Your task to perform on an android device: turn on bluetooth scan Image 0: 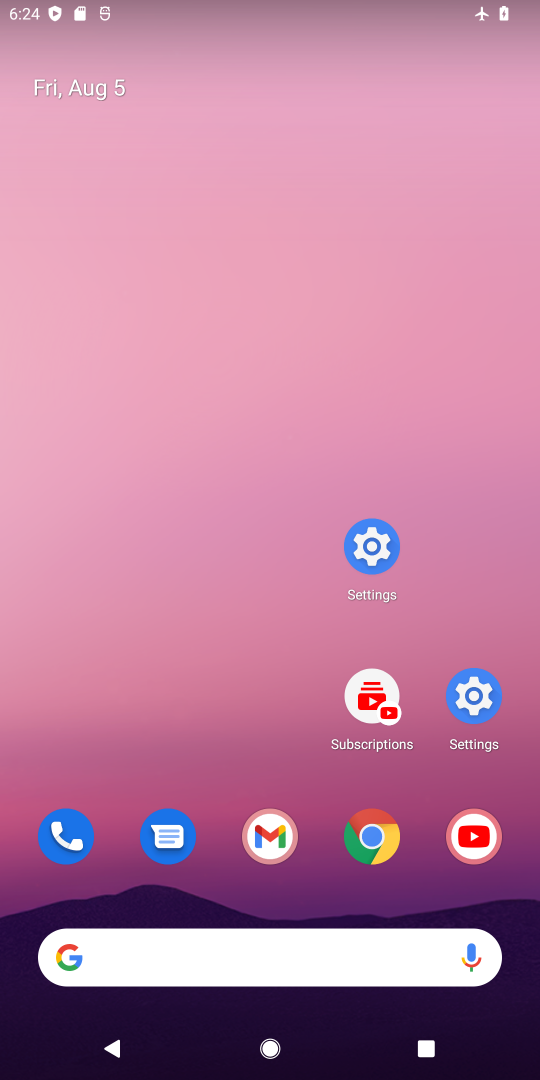
Step 0: click (303, 485)
Your task to perform on an android device: turn on bluetooth scan Image 1: 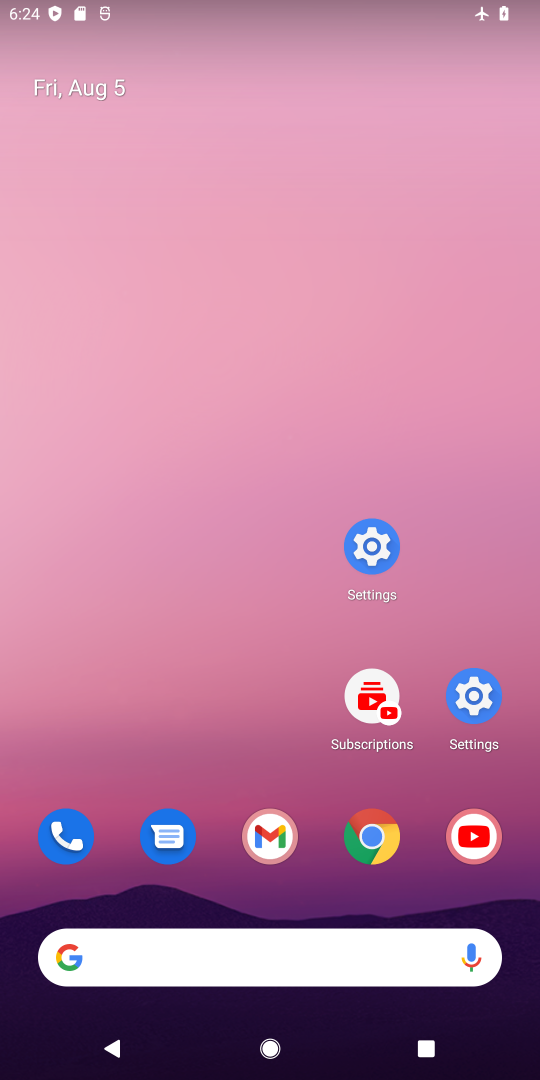
Step 1: drag from (293, 855) to (313, 535)
Your task to perform on an android device: turn on bluetooth scan Image 2: 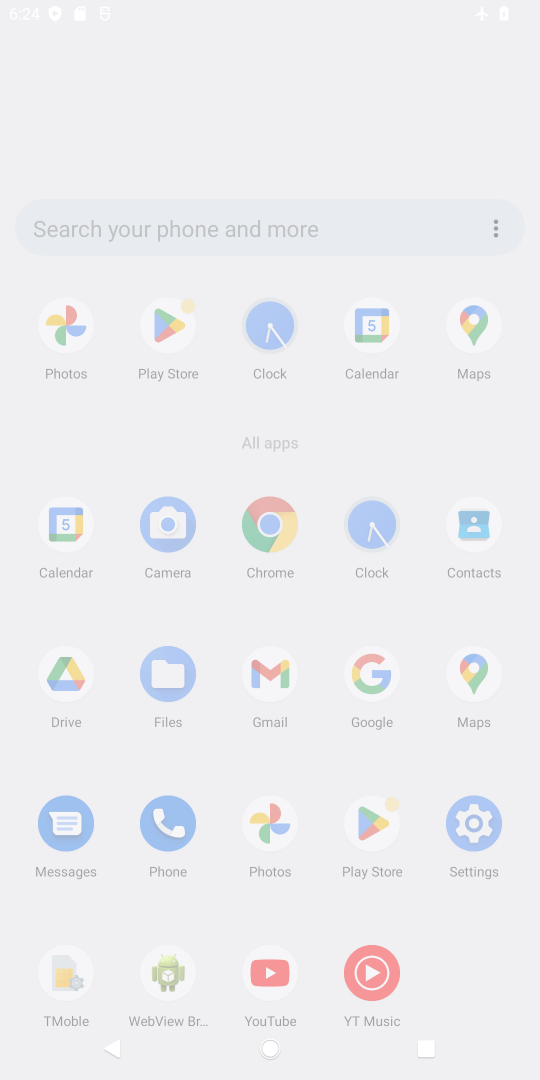
Step 2: drag from (386, 860) to (324, 519)
Your task to perform on an android device: turn on bluetooth scan Image 3: 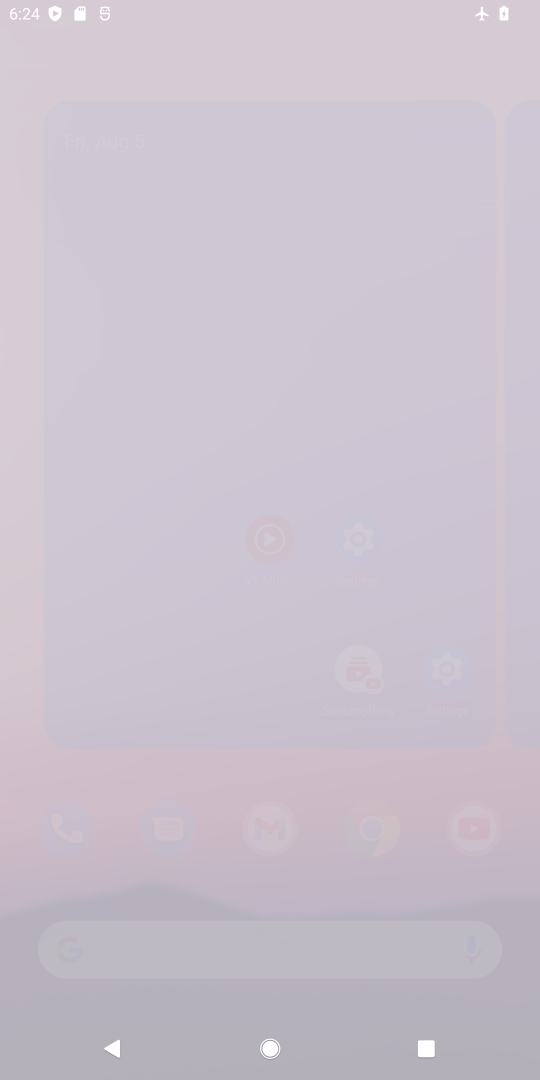
Step 3: drag from (219, 385) to (223, 301)
Your task to perform on an android device: turn on bluetooth scan Image 4: 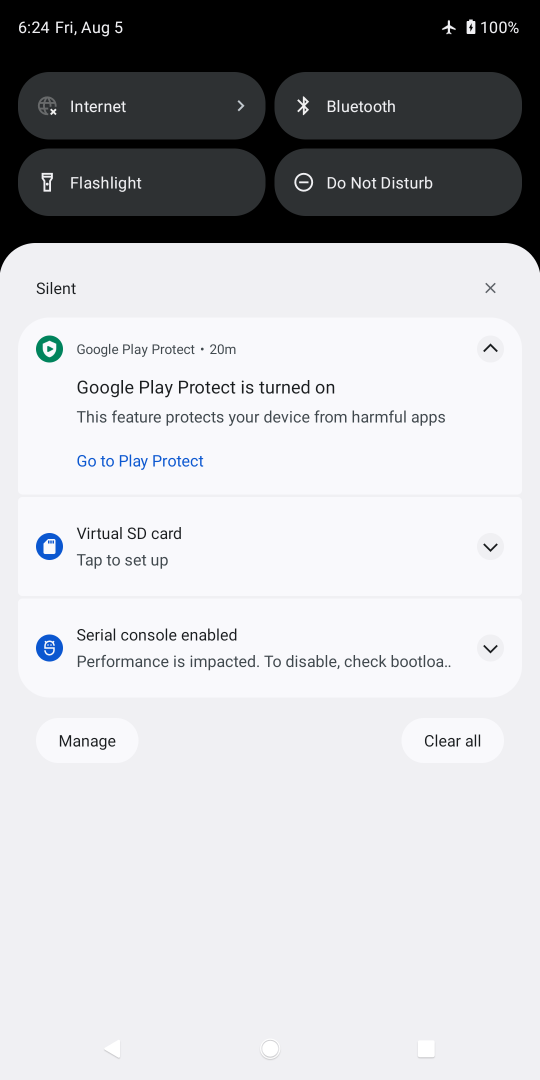
Step 4: click (299, 439)
Your task to perform on an android device: turn on bluetooth scan Image 5: 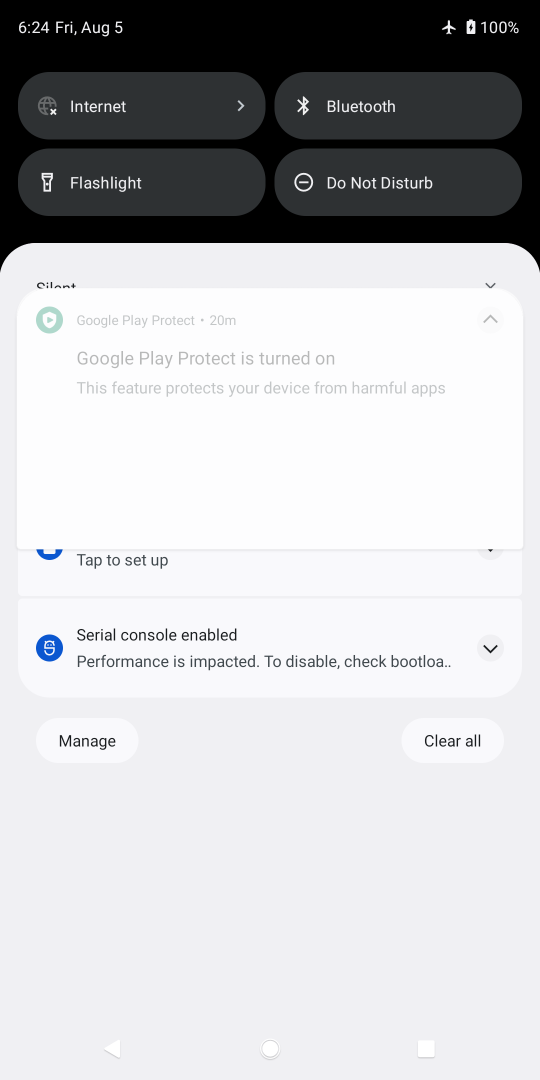
Step 5: drag from (325, 677) to (317, 288)
Your task to perform on an android device: turn on bluetooth scan Image 6: 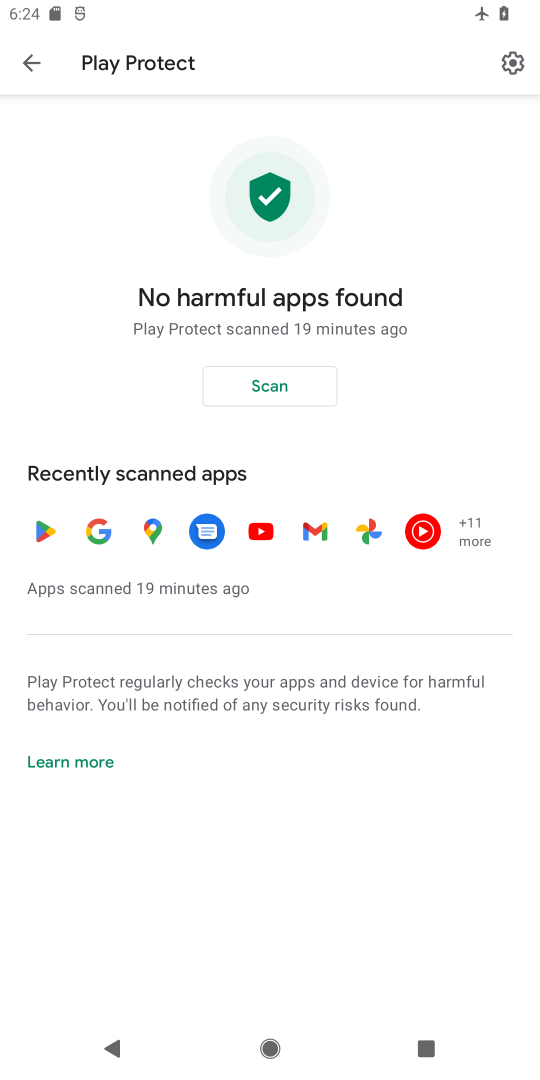
Step 6: drag from (355, 839) to (370, 124)
Your task to perform on an android device: turn on bluetooth scan Image 7: 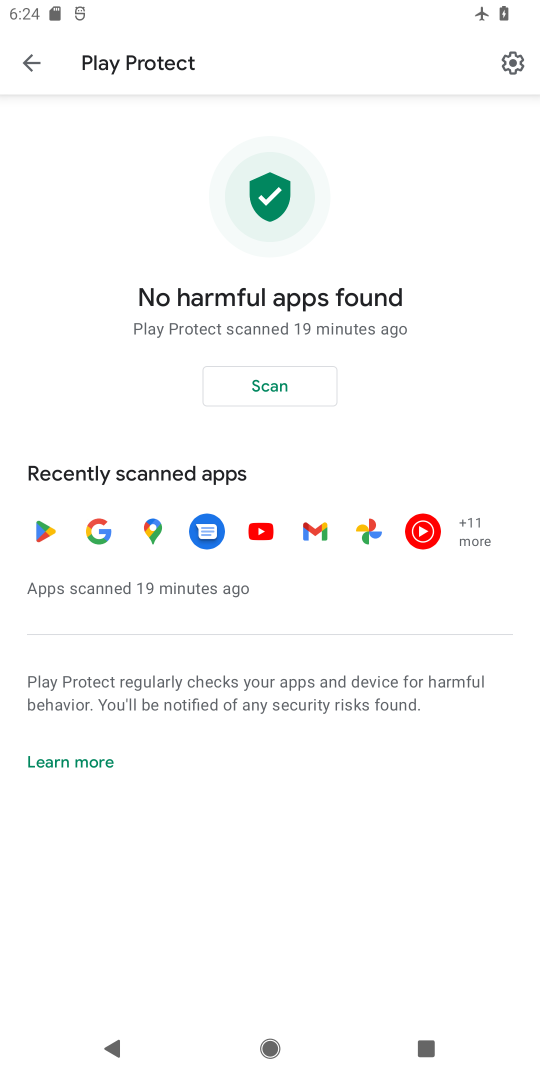
Step 7: press back button
Your task to perform on an android device: turn on bluetooth scan Image 8: 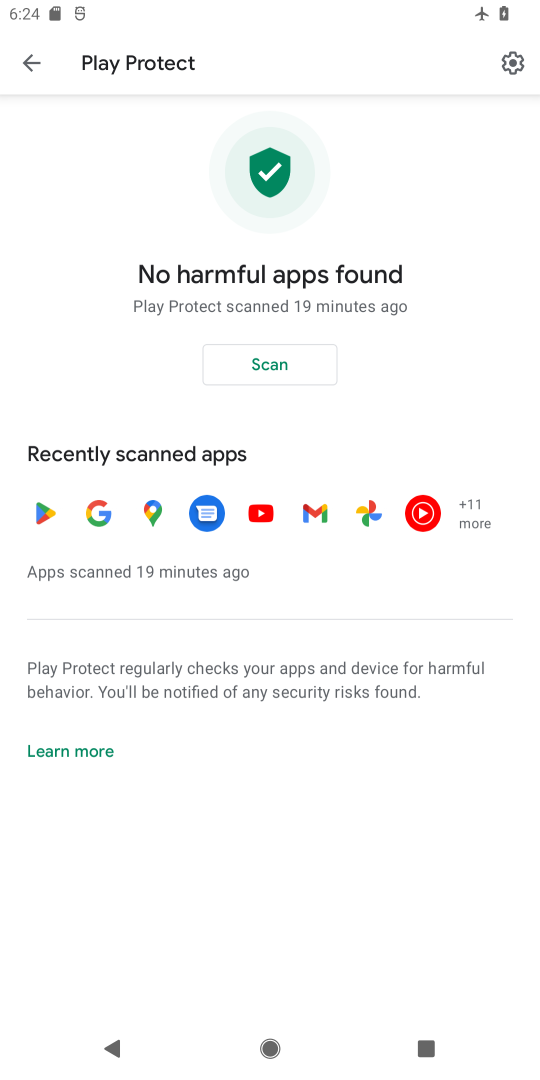
Step 8: press back button
Your task to perform on an android device: turn on bluetooth scan Image 9: 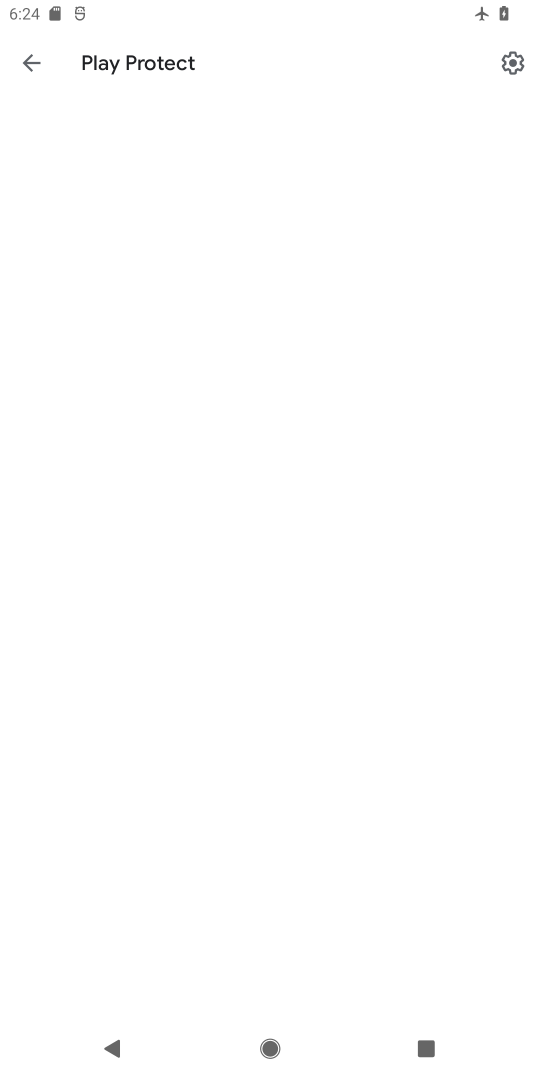
Step 9: press home button
Your task to perform on an android device: turn on bluetooth scan Image 10: 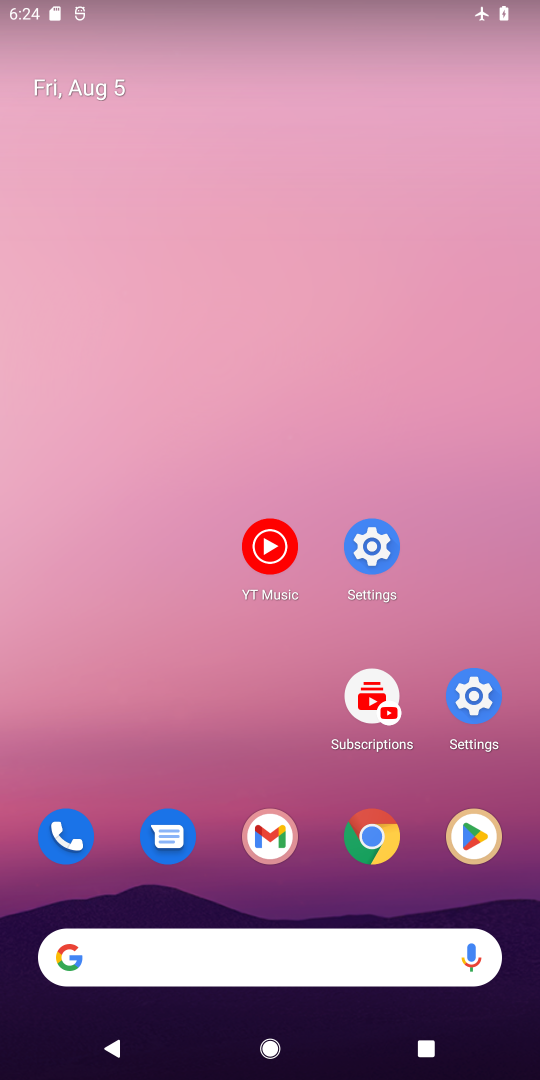
Step 10: click (37, 67)
Your task to perform on an android device: turn on bluetooth scan Image 11: 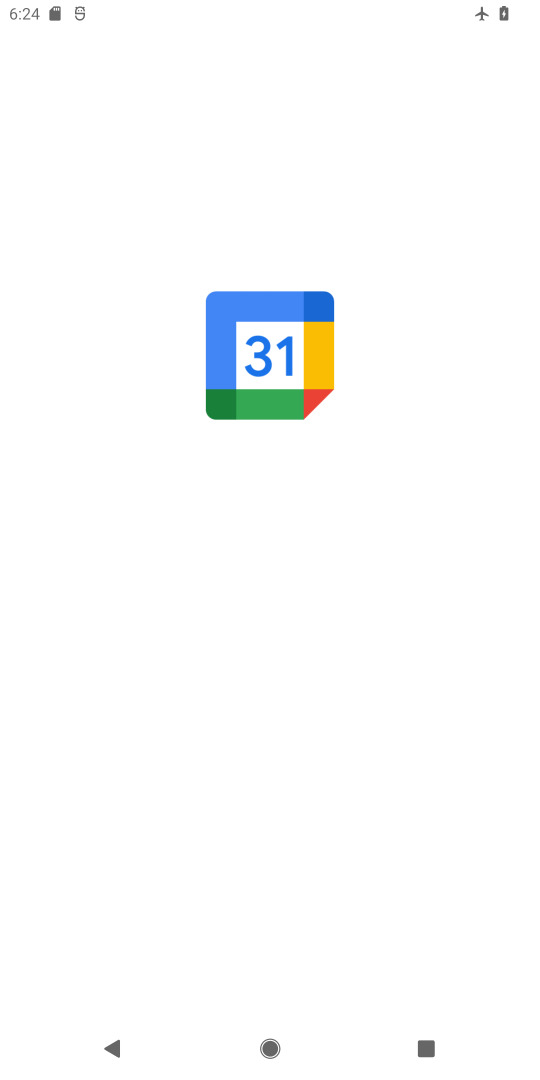
Step 11: drag from (305, 1016) to (217, 389)
Your task to perform on an android device: turn on bluetooth scan Image 12: 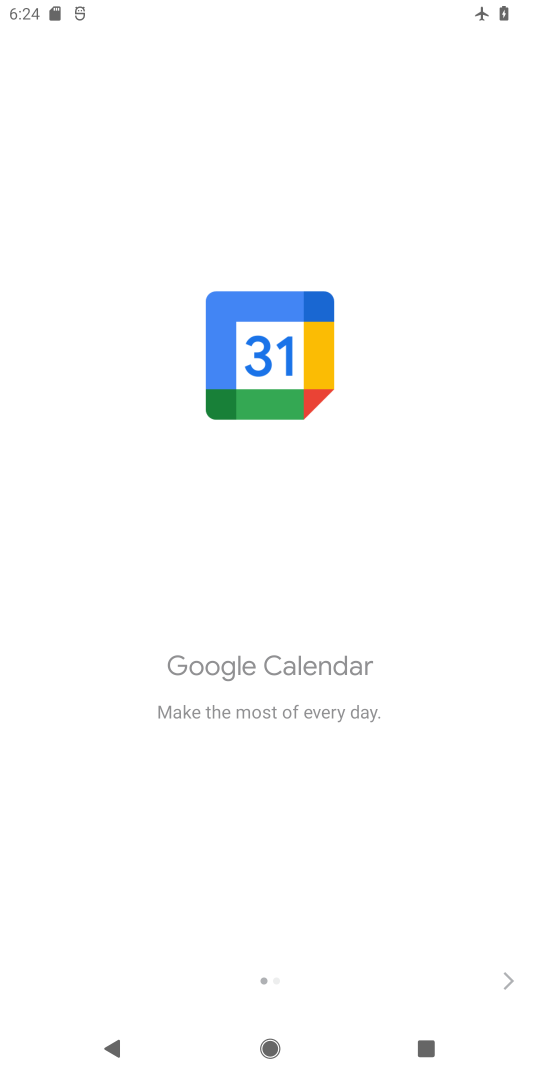
Step 12: drag from (348, 846) to (277, 257)
Your task to perform on an android device: turn on bluetooth scan Image 13: 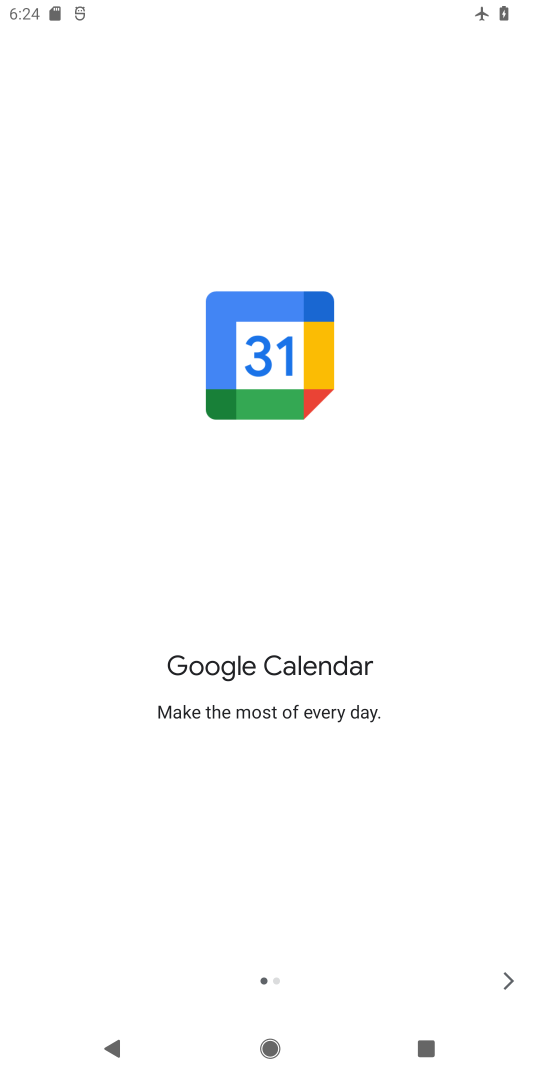
Step 13: click (520, 987)
Your task to perform on an android device: turn on bluetooth scan Image 14: 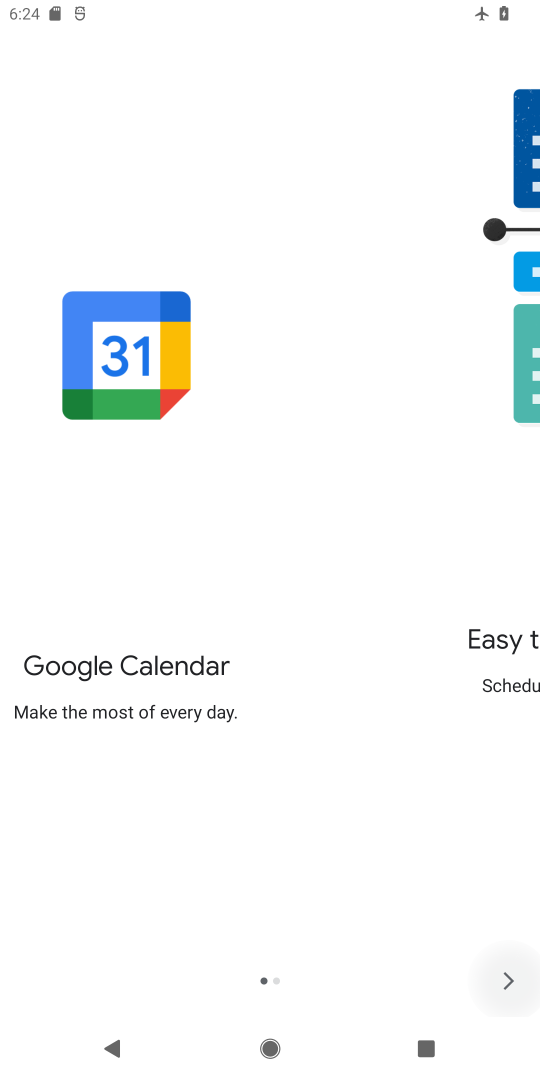
Step 14: click (502, 981)
Your task to perform on an android device: turn on bluetooth scan Image 15: 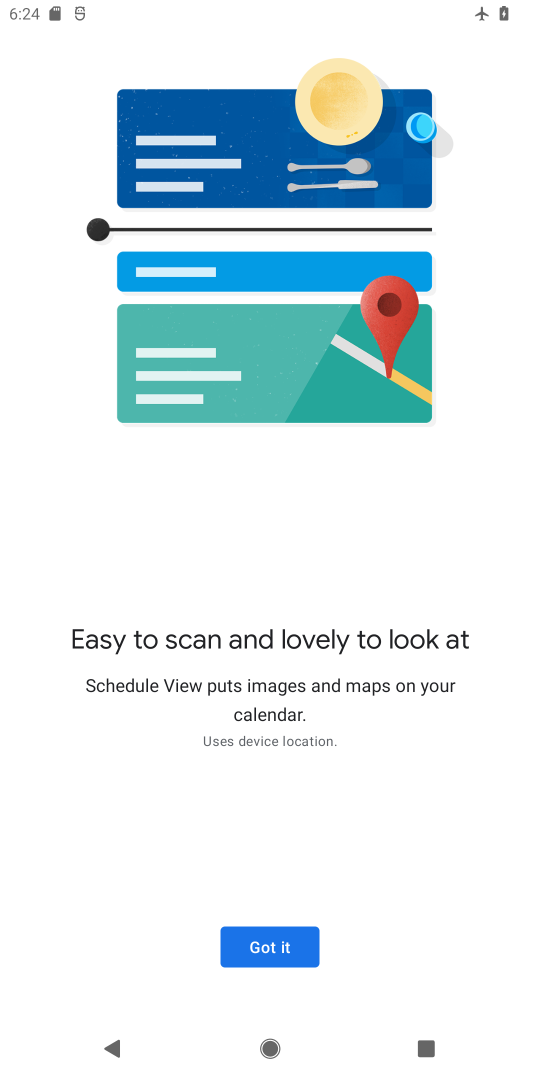
Step 15: press home button
Your task to perform on an android device: turn on bluetooth scan Image 16: 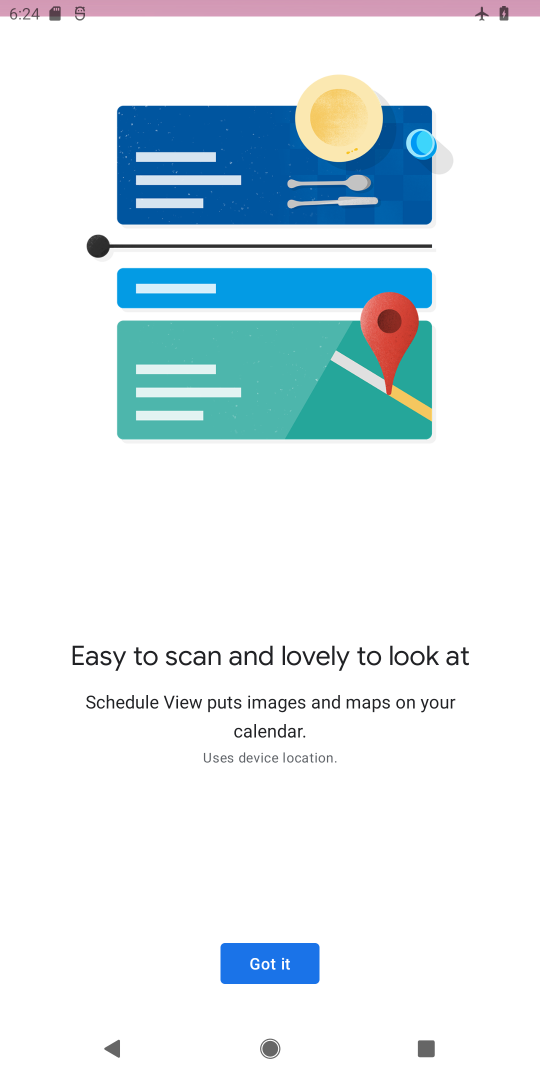
Step 16: press home button
Your task to perform on an android device: turn on bluetooth scan Image 17: 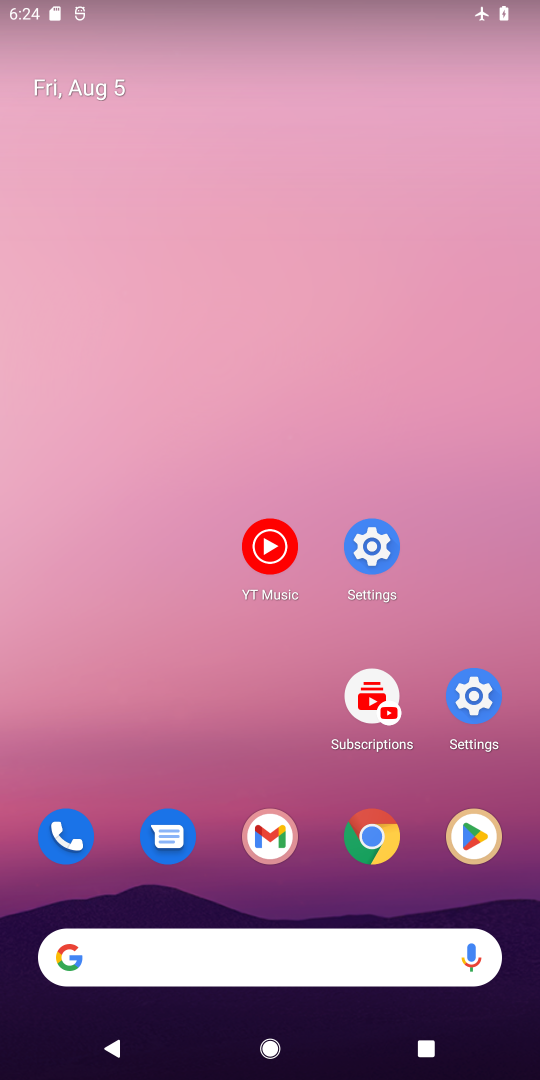
Step 17: press home button
Your task to perform on an android device: turn on bluetooth scan Image 18: 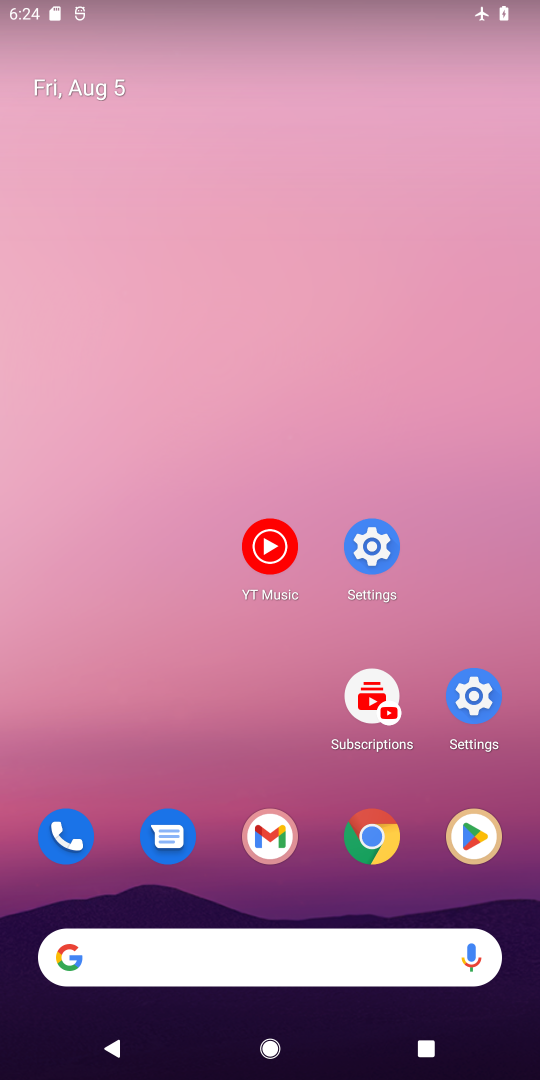
Step 18: drag from (329, 985) to (291, 433)
Your task to perform on an android device: turn on bluetooth scan Image 19: 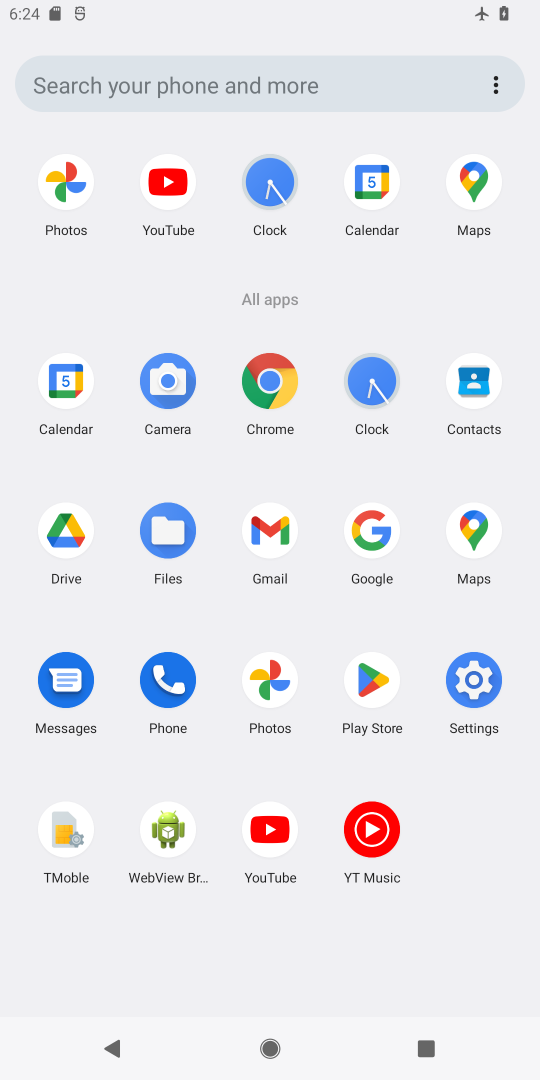
Step 19: drag from (295, 554) to (215, 276)
Your task to perform on an android device: turn on bluetooth scan Image 20: 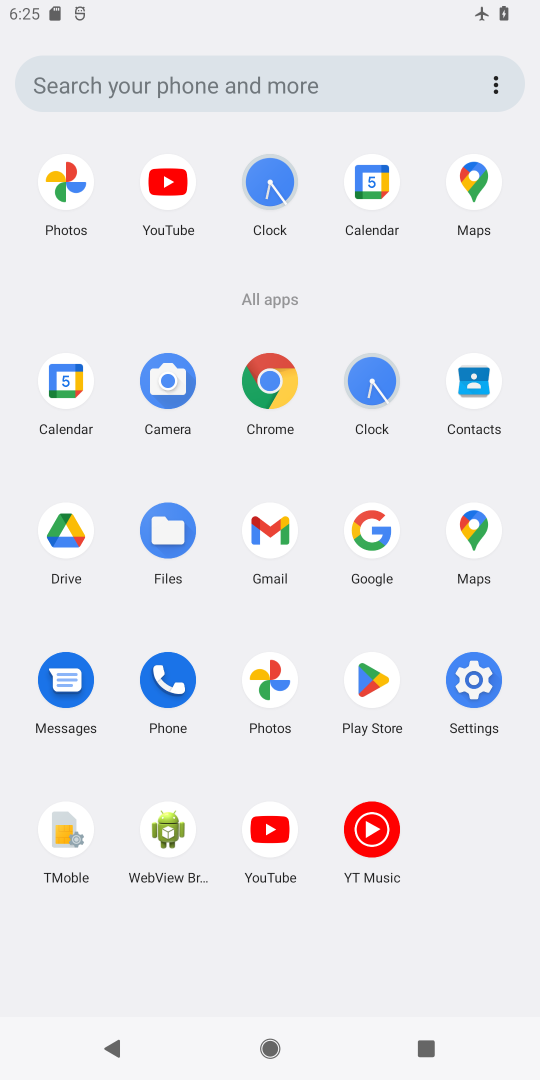
Step 20: click (481, 683)
Your task to perform on an android device: turn on bluetooth scan Image 21: 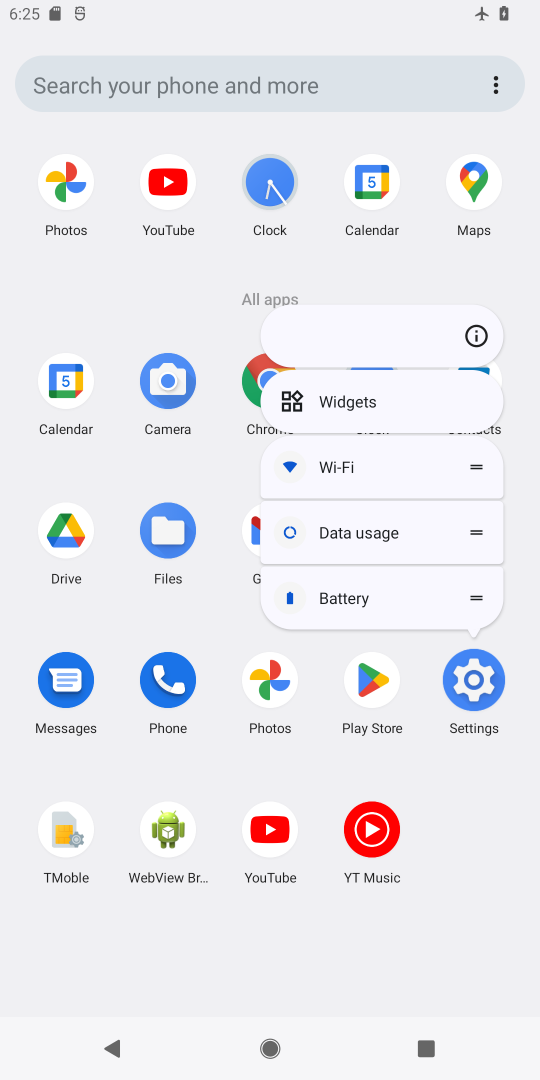
Step 21: click (481, 683)
Your task to perform on an android device: turn on bluetooth scan Image 22: 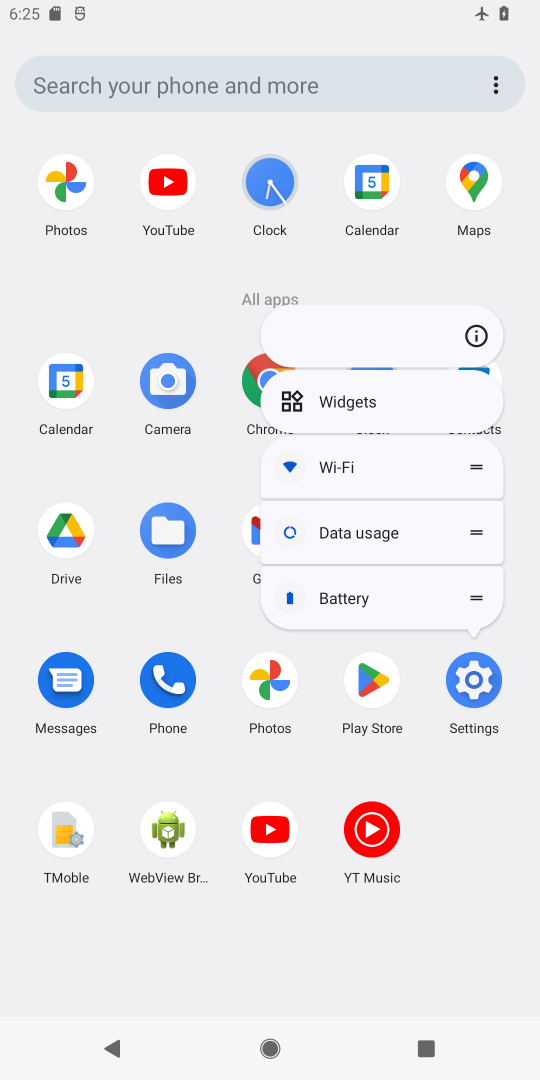
Step 22: click (481, 683)
Your task to perform on an android device: turn on bluetooth scan Image 23: 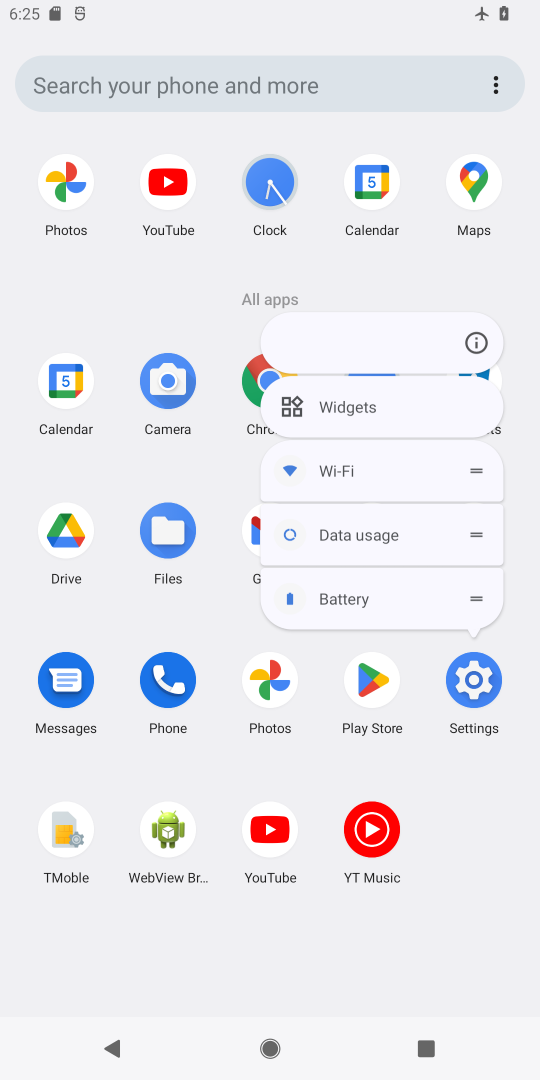
Step 23: click (481, 683)
Your task to perform on an android device: turn on bluetooth scan Image 24: 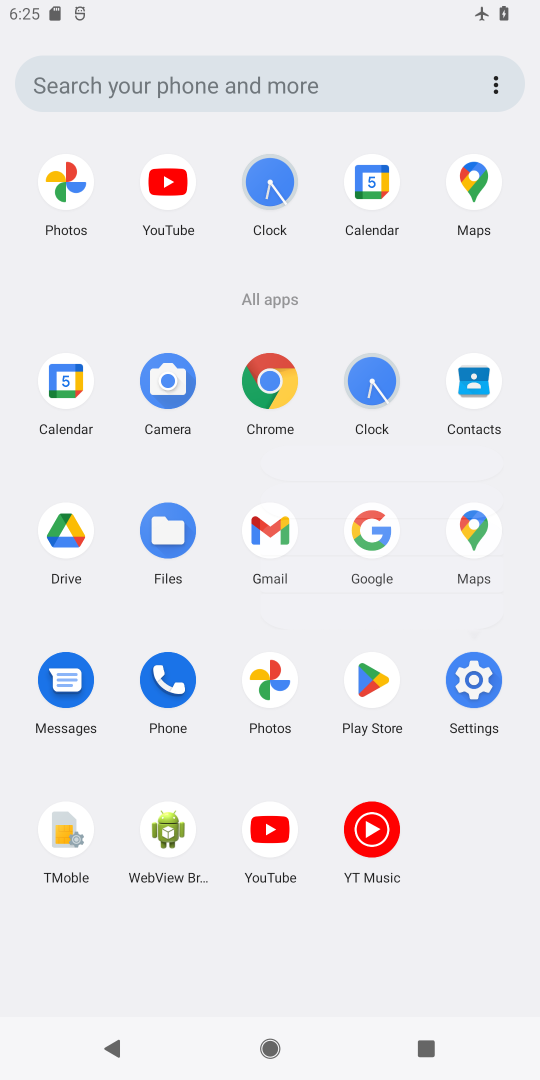
Step 24: click (481, 683)
Your task to perform on an android device: turn on bluetooth scan Image 25: 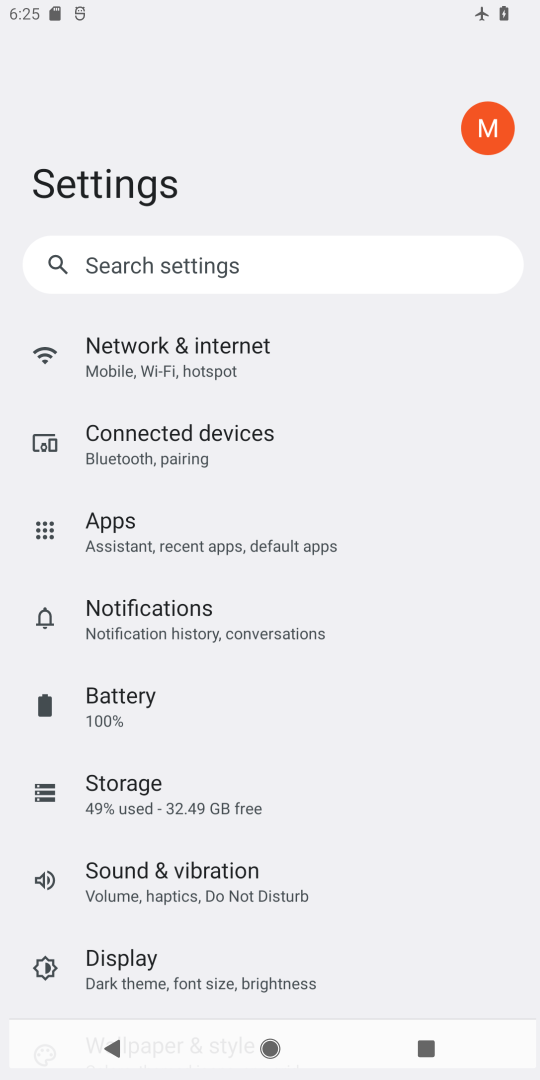
Step 25: click (481, 683)
Your task to perform on an android device: turn on bluetooth scan Image 26: 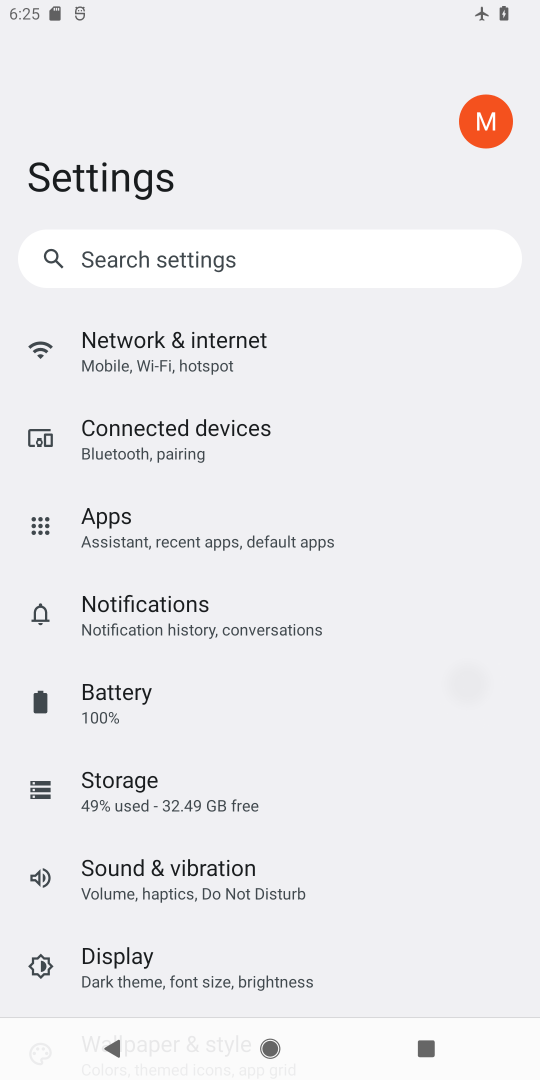
Step 26: click (481, 683)
Your task to perform on an android device: turn on bluetooth scan Image 27: 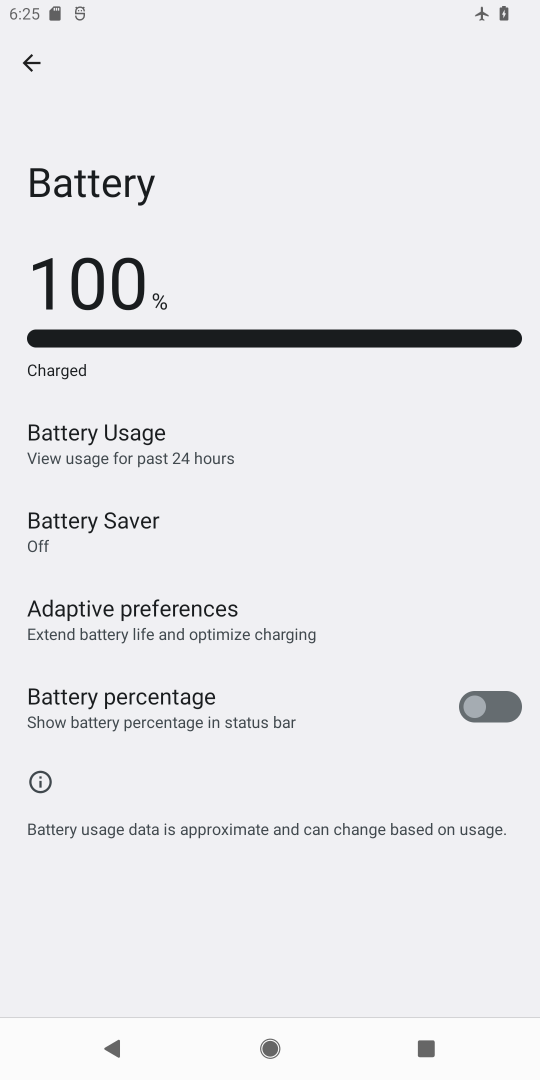
Step 27: click (34, 63)
Your task to perform on an android device: turn on bluetooth scan Image 28: 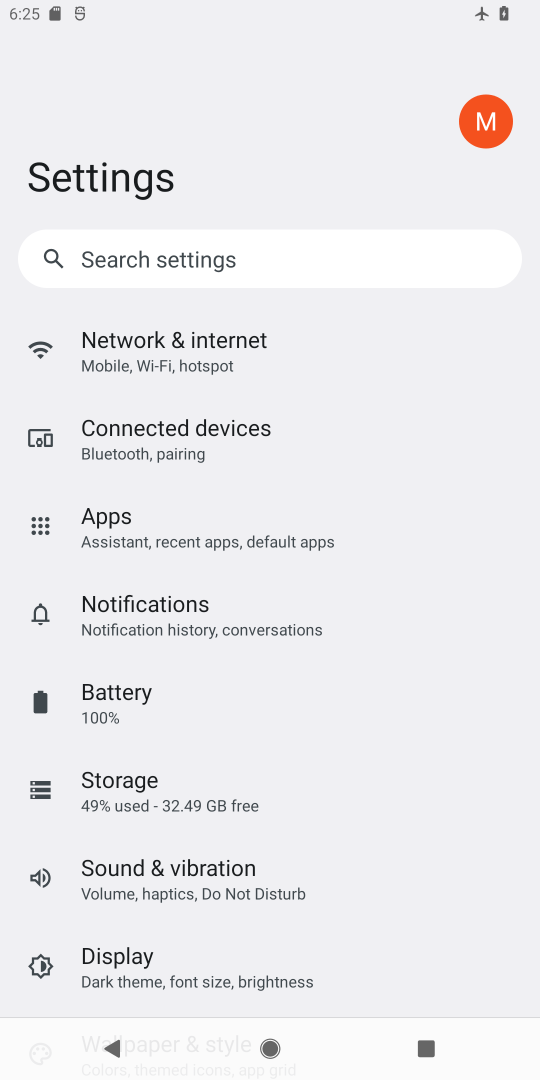
Step 28: drag from (235, 798) to (111, 439)
Your task to perform on an android device: turn on bluetooth scan Image 29: 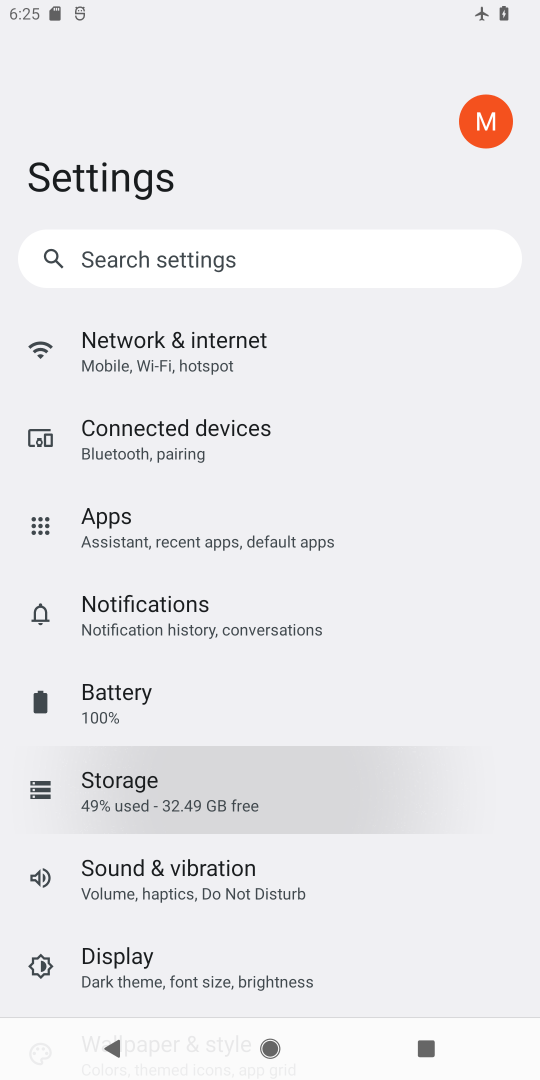
Step 29: drag from (149, 766) to (113, 412)
Your task to perform on an android device: turn on bluetooth scan Image 30: 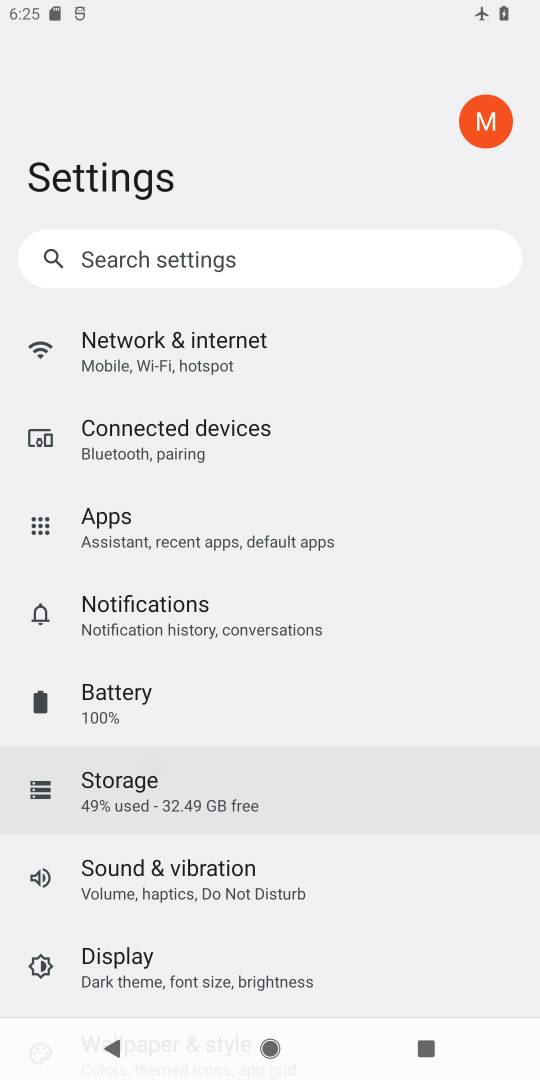
Step 30: drag from (148, 661) to (148, 428)
Your task to perform on an android device: turn on bluetooth scan Image 31: 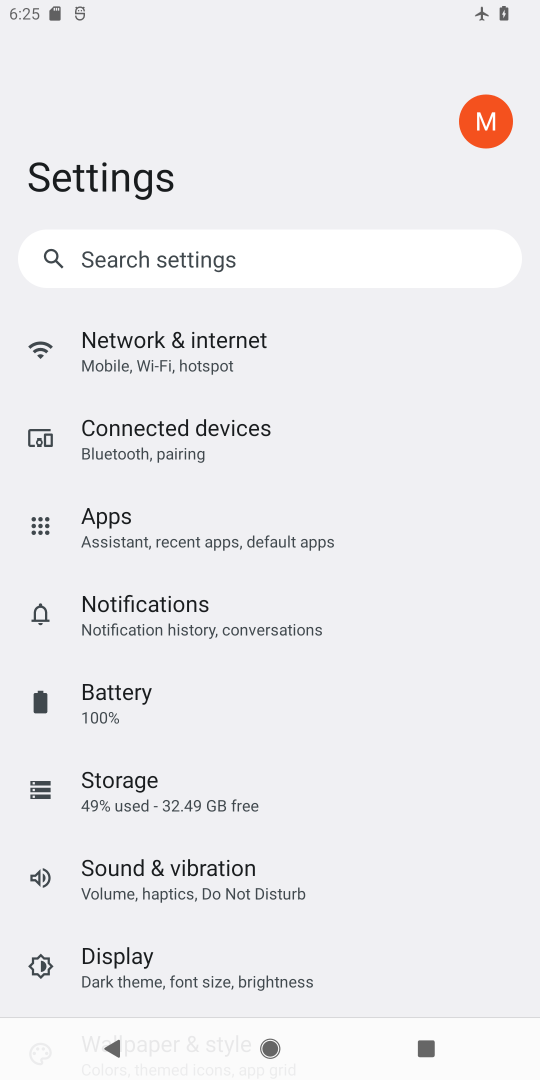
Step 31: drag from (270, 770) to (220, 429)
Your task to perform on an android device: turn on bluetooth scan Image 32: 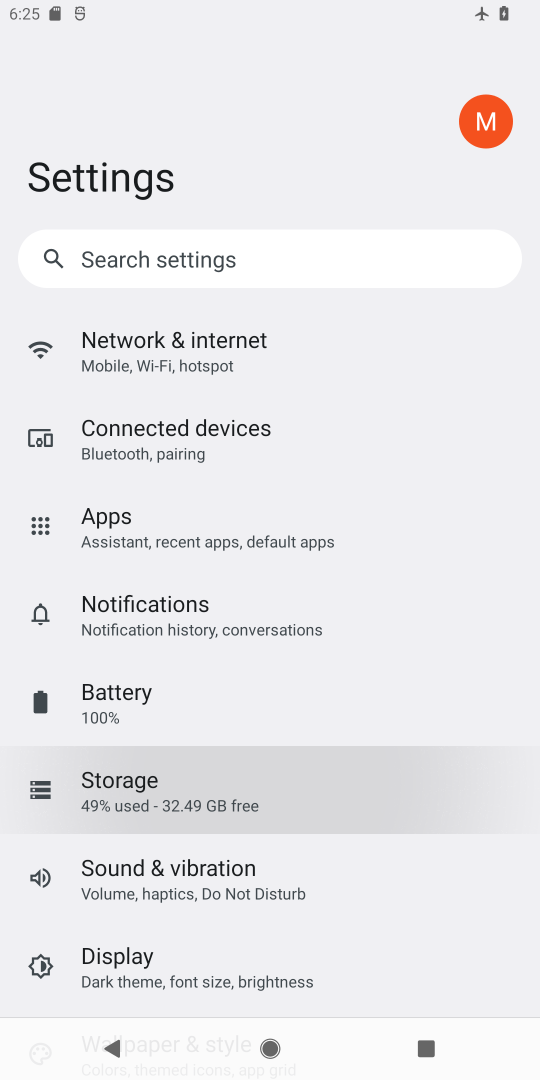
Step 32: drag from (320, 810) to (317, 402)
Your task to perform on an android device: turn on bluetooth scan Image 33: 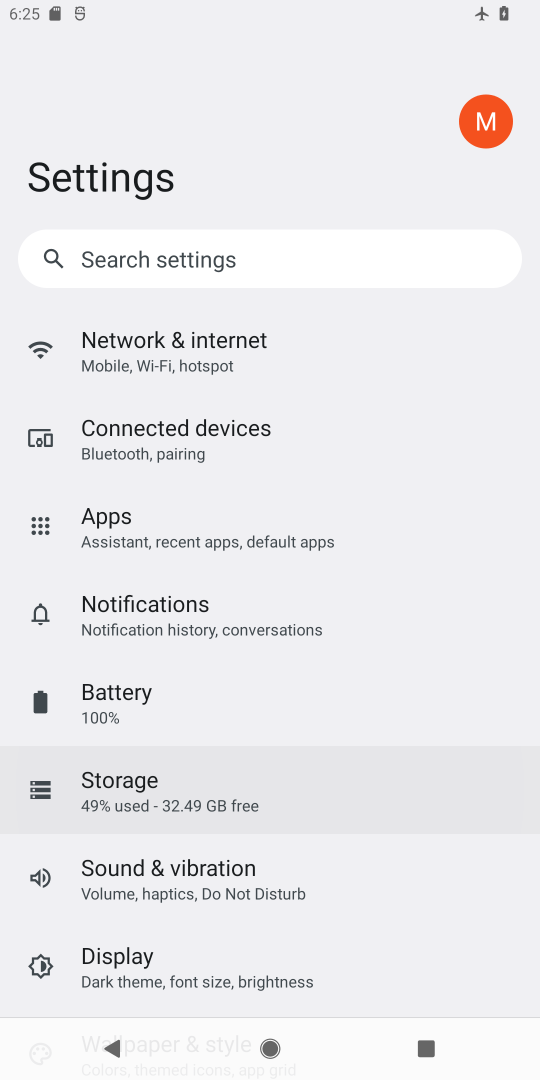
Step 33: drag from (354, 667) to (354, 302)
Your task to perform on an android device: turn on bluetooth scan Image 34: 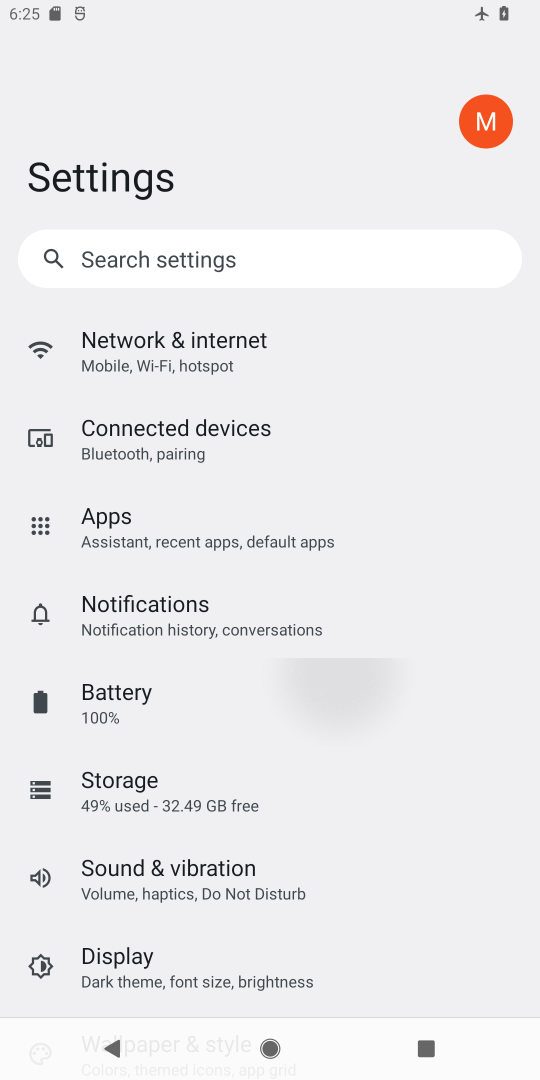
Step 34: drag from (245, 756) to (215, 396)
Your task to perform on an android device: turn on bluetooth scan Image 35: 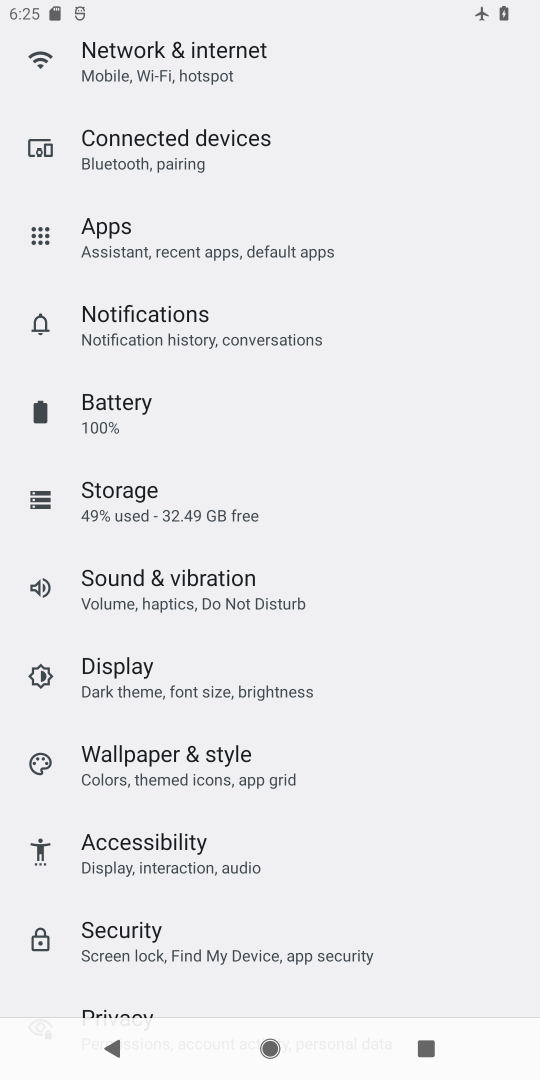
Step 35: drag from (224, 744) to (196, 498)
Your task to perform on an android device: turn on bluetooth scan Image 36: 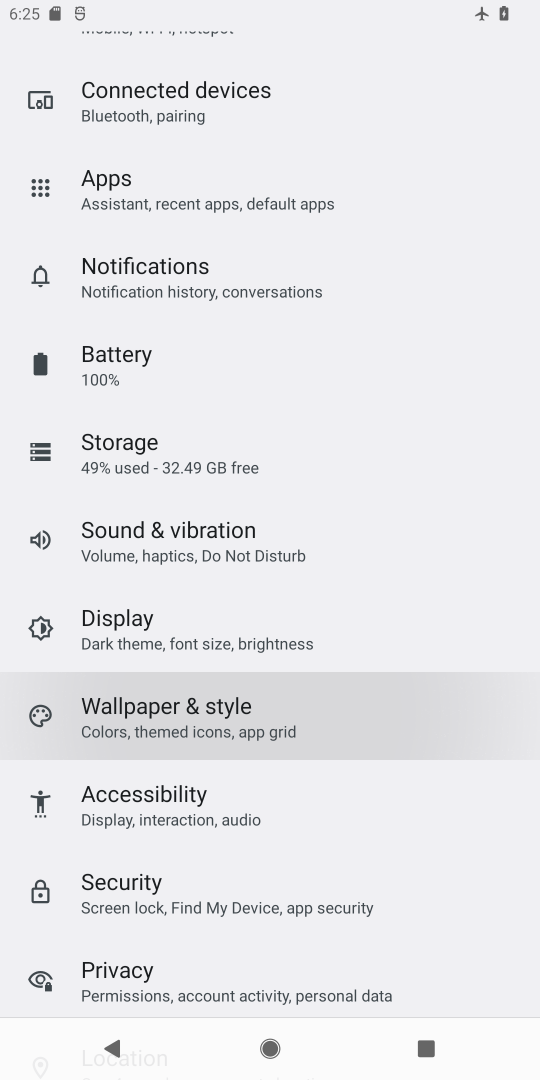
Step 36: drag from (184, 224) to (193, 296)
Your task to perform on an android device: turn on bluetooth scan Image 37: 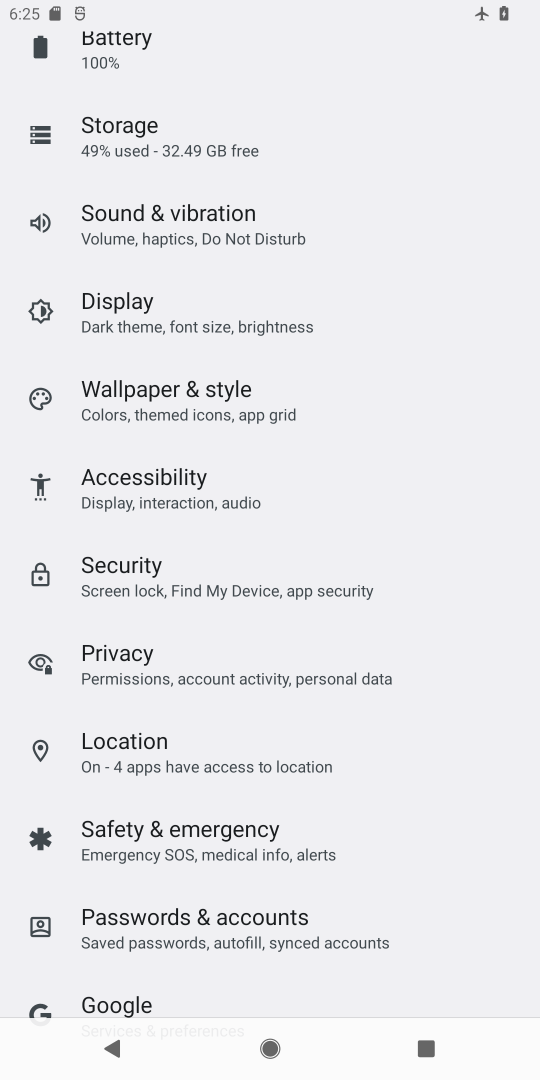
Step 37: drag from (201, 763) to (274, 291)
Your task to perform on an android device: turn on bluetooth scan Image 38: 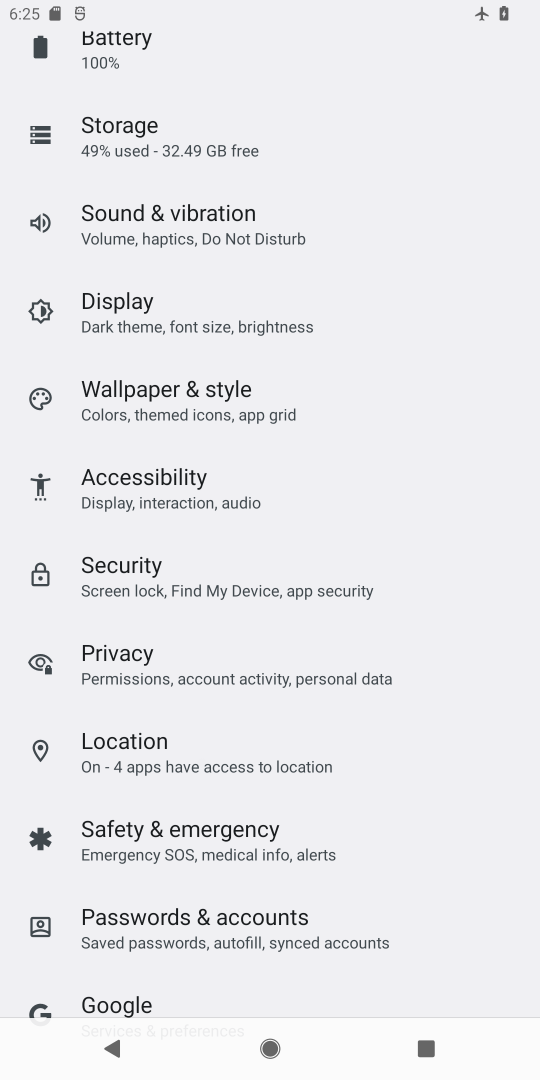
Step 38: drag from (246, 594) to (228, 129)
Your task to perform on an android device: turn on bluetooth scan Image 39: 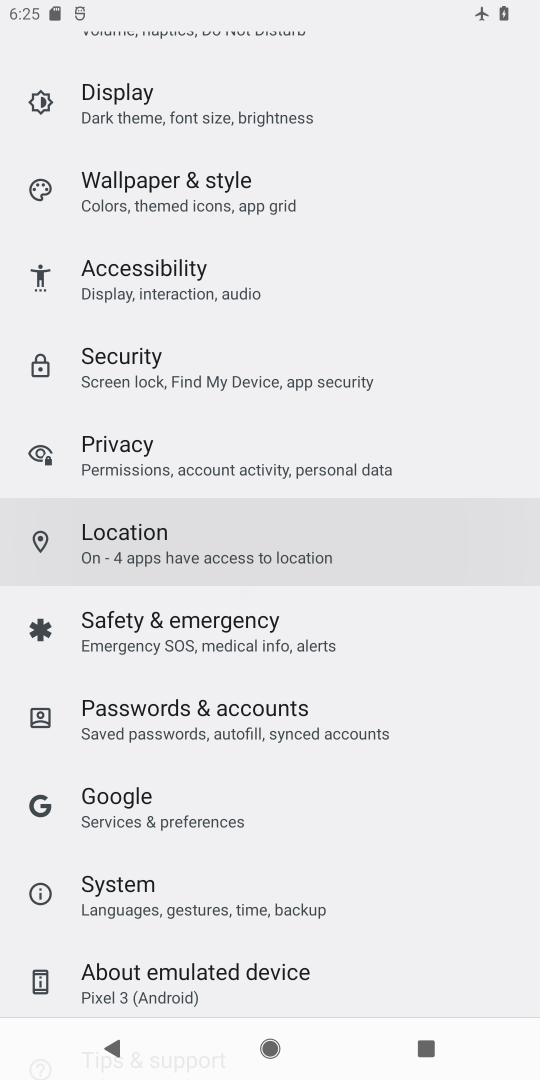
Step 39: drag from (185, 486) to (187, 308)
Your task to perform on an android device: turn on bluetooth scan Image 40: 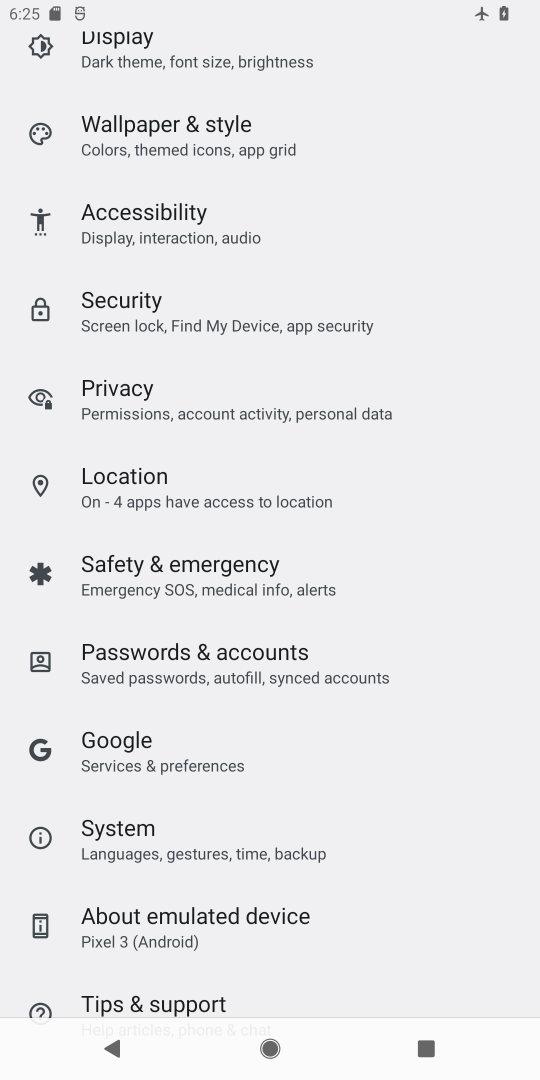
Step 40: drag from (155, 415) to (174, 758)
Your task to perform on an android device: turn on bluetooth scan Image 41: 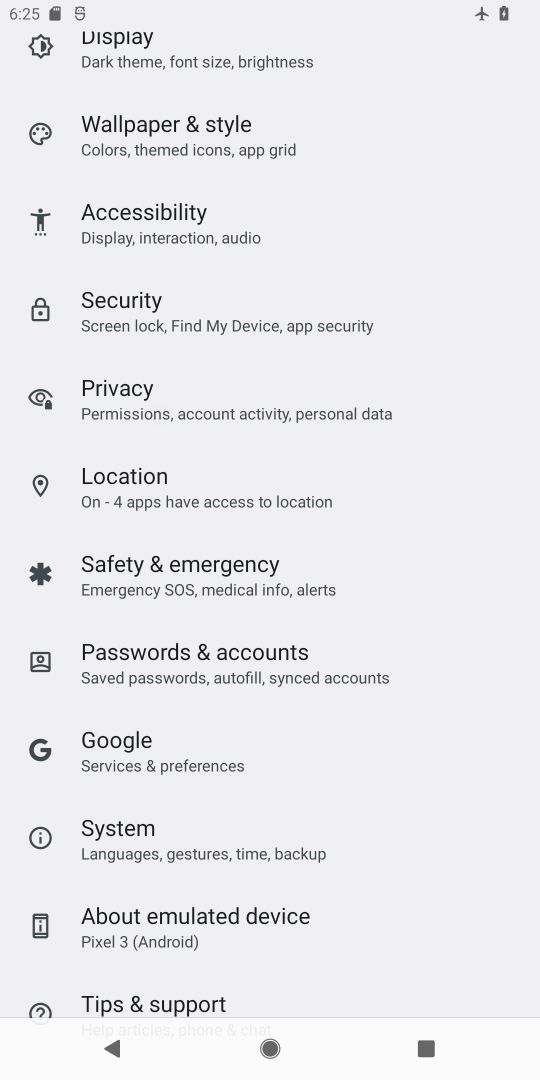
Step 41: drag from (133, 688) to (194, 900)
Your task to perform on an android device: turn on bluetooth scan Image 42: 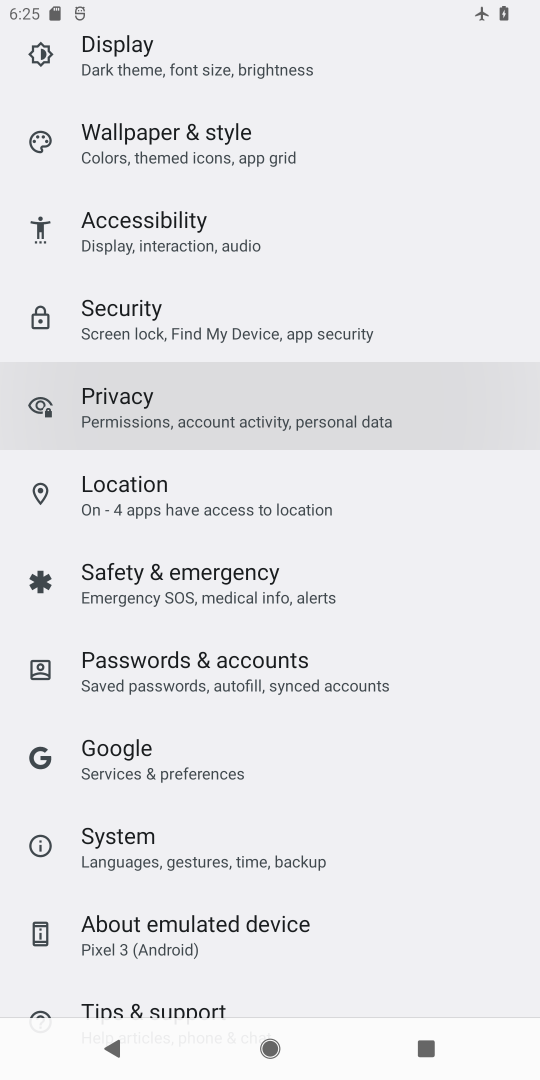
Step 42: drag from (156, 598) to (250, 1006)
Your task to perform on an android device: turn on bluetooth scan Image 43: 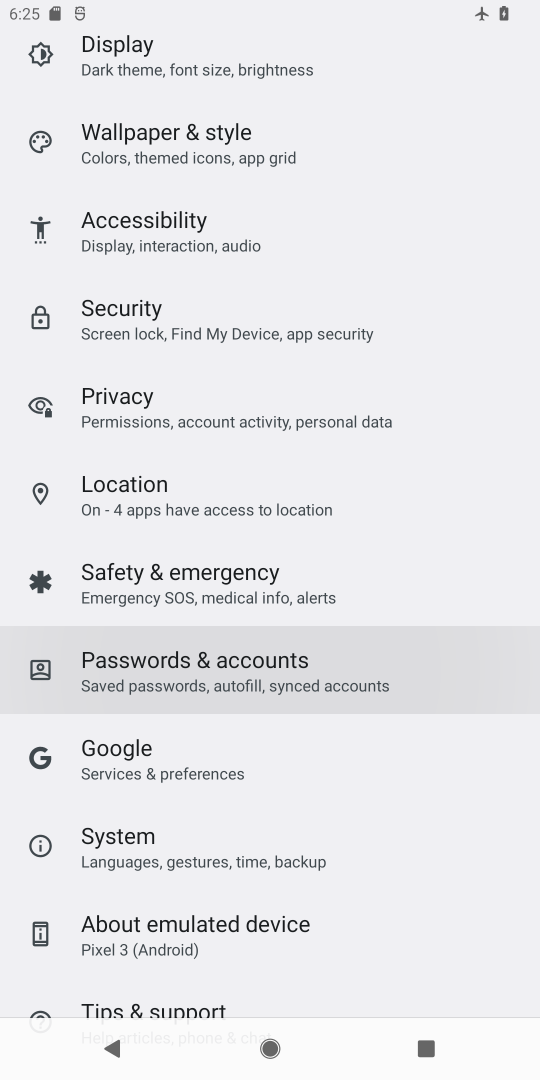
Step 43: drag from (152, 494) to (225, 847)
Your task to perform on an android device: turn on bluetooth scan Image 44: 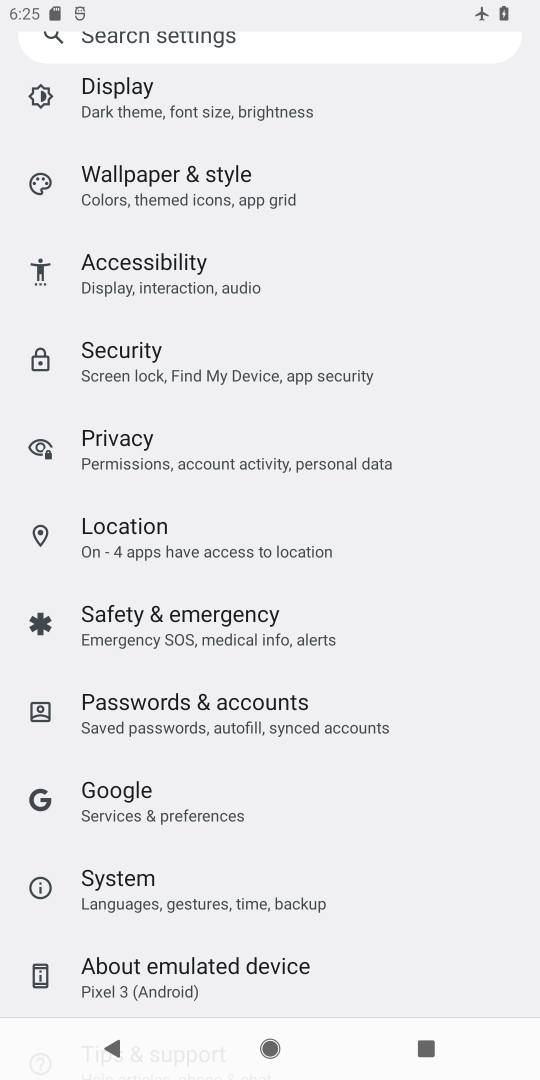
Step 44: drag from (175, 288) to (229, 598)
Your task to perform on an android device: turn on bluetooth scan Image 45: 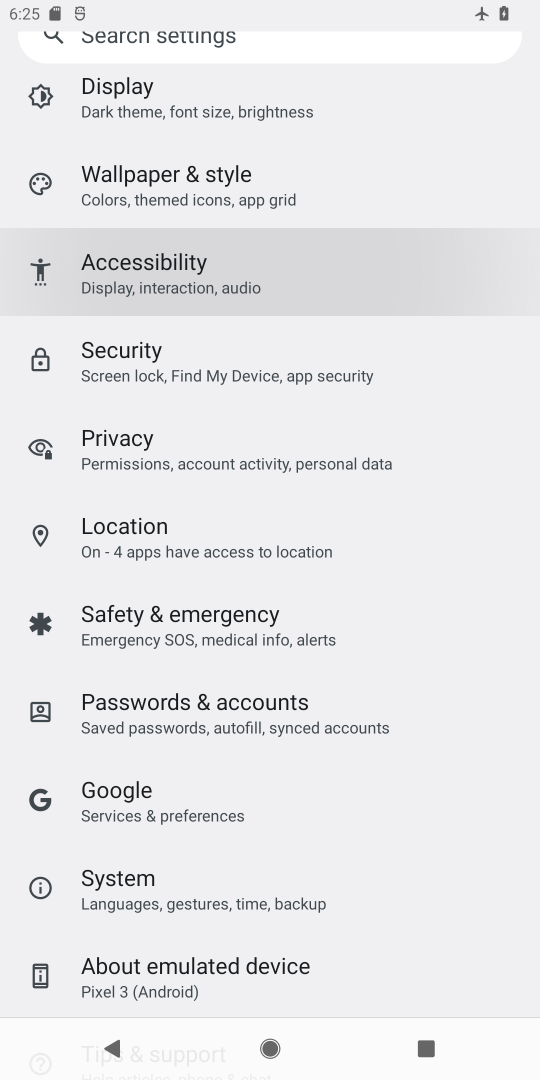
Step 45: drag from (205, 445) to (205, 751)
Your task to perform on an android device: turn on bluetooth scan Image 46: 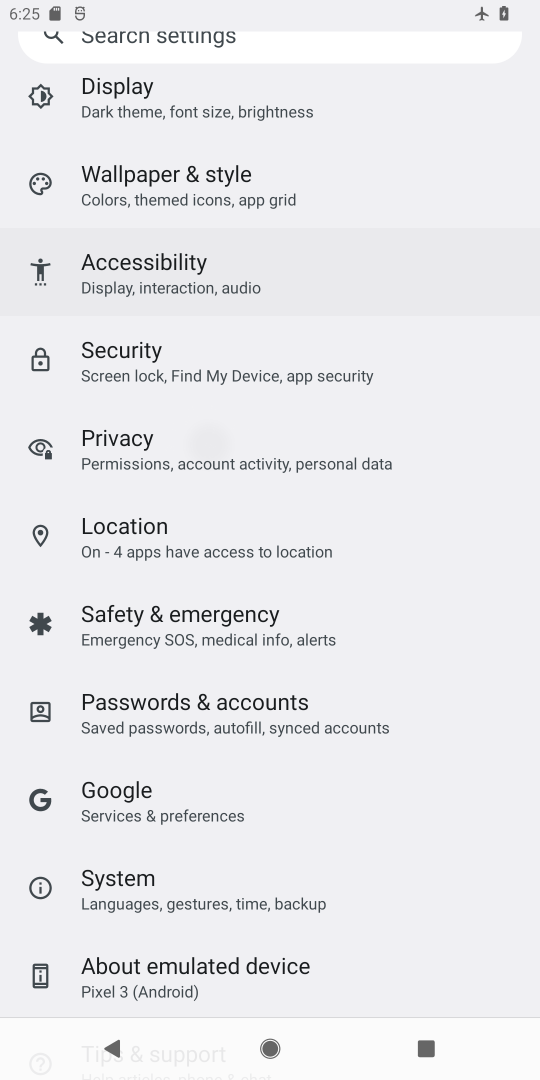
Step 46: drag from (185, 297) to (219, 542)
Your task to perform on an android device: turn on bluetooth scan Image 47: 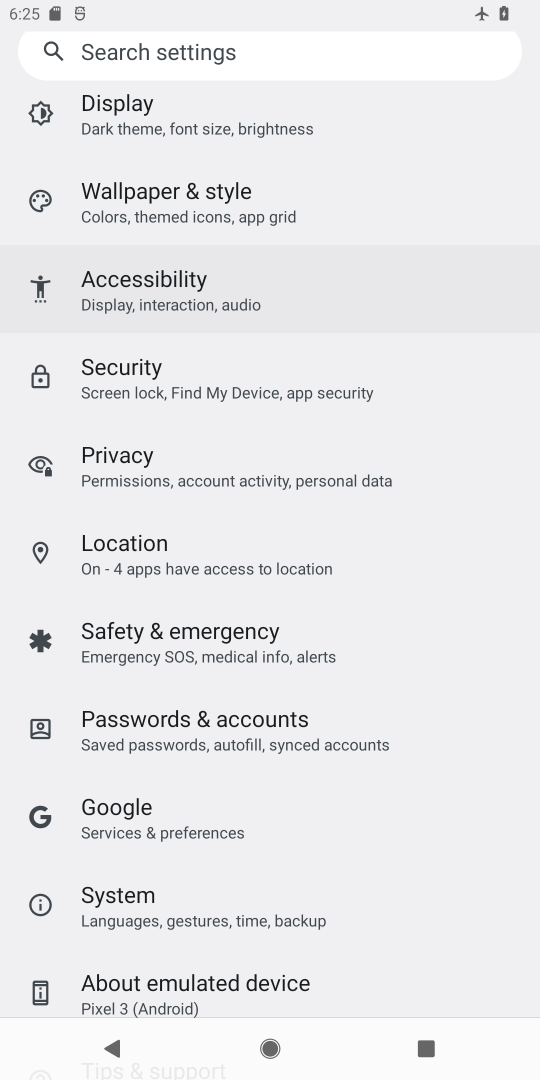
Step 47: drag from (230, 393) to (240, 718)
Your task to perform on an android device: turn on bluetooth scan Image 48: 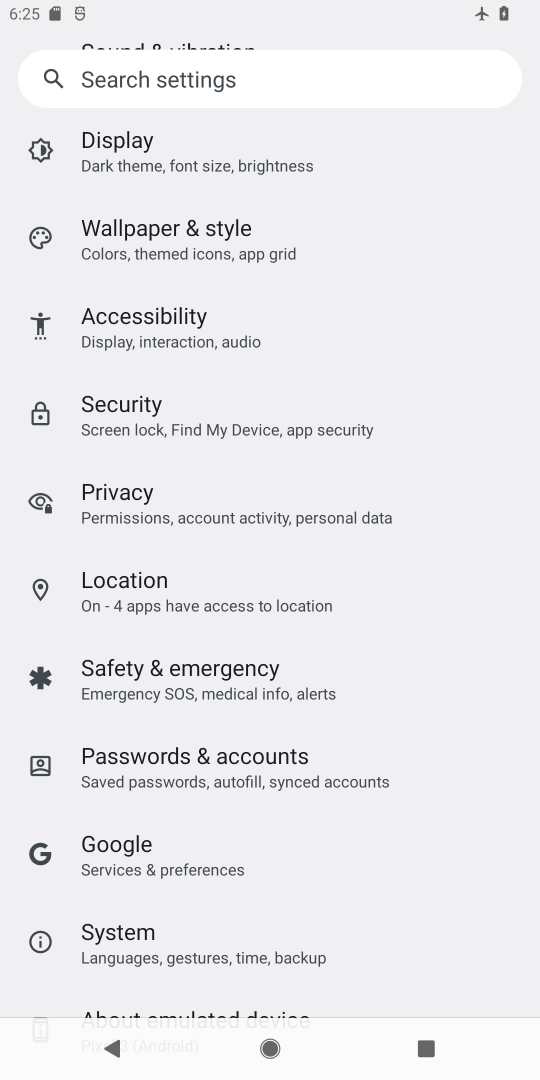
Step 48: drag from (152, 270) to (212, 612)
Your task to perform on an android device: turn on bluetooth scan Image 49: 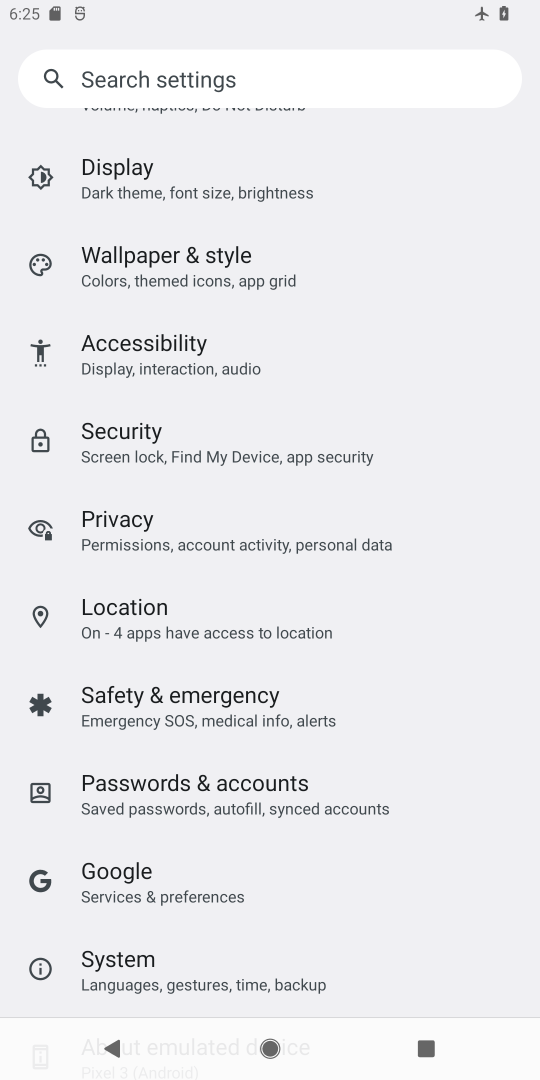
Step 49: click (146, 628)
Your task to perform on an android device: turn on bluetooth scan Image 50: 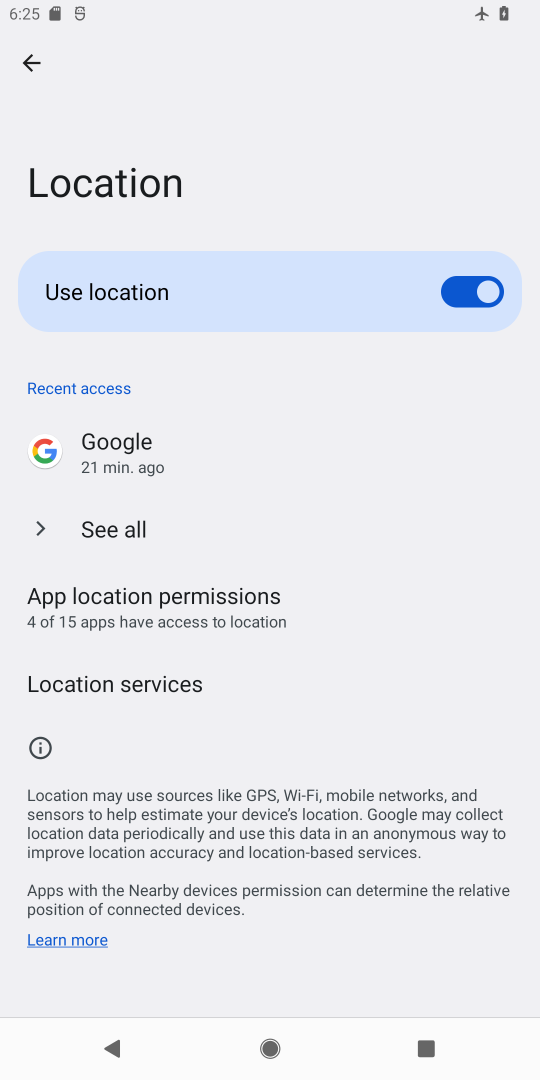
Step 50: click (151, 617)
Your task to perform on an android device: turn on bluetooth scan Image 51: 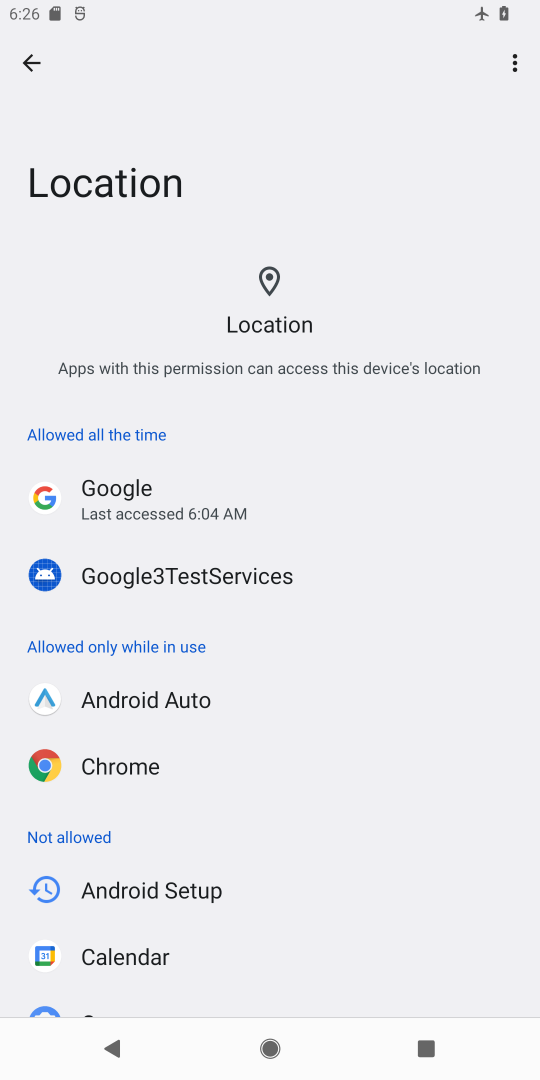
Step 51: drag from (204, 824) to (125, 407)
Your task to perform on an android device: turn on bluetooth scan Image 52: 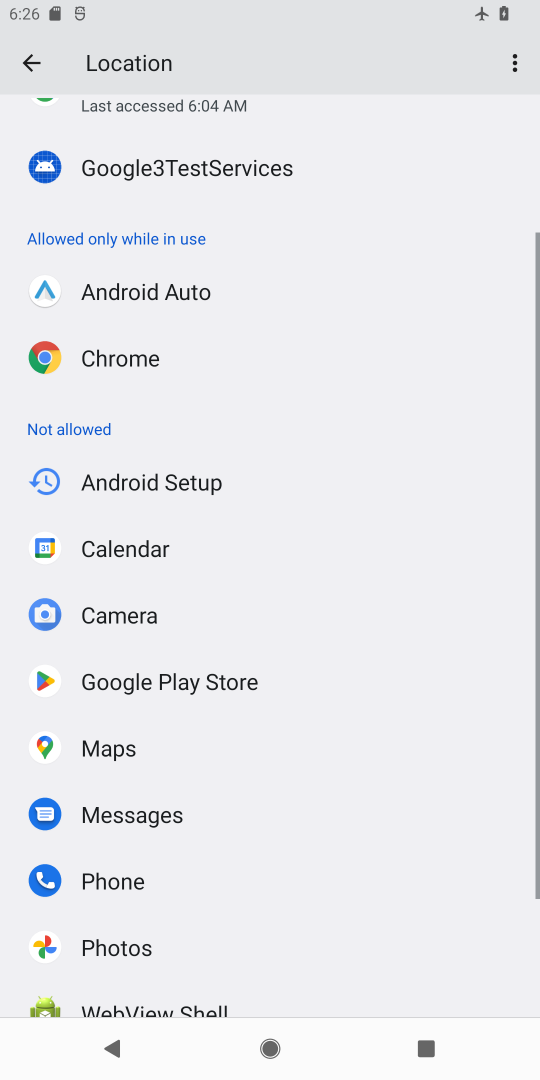
Step 52: drag from (170, 426) to (150, 260)
Your task to perform on an android device: turn on bluetooth scan Image 53: 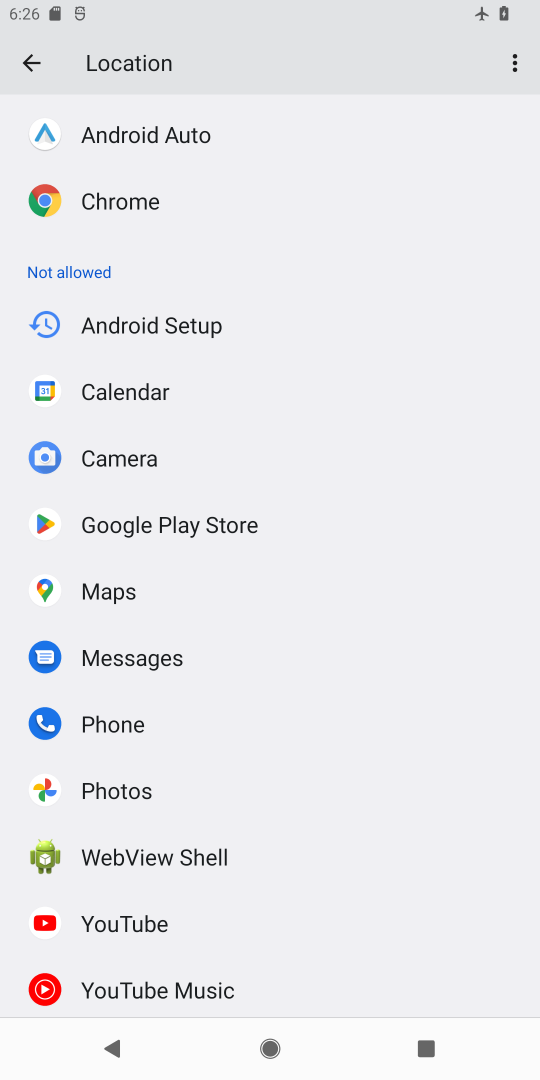
Step 53: click (20, 64)
Your task to perform on an android device: turn on bluetooth scan Image 54: 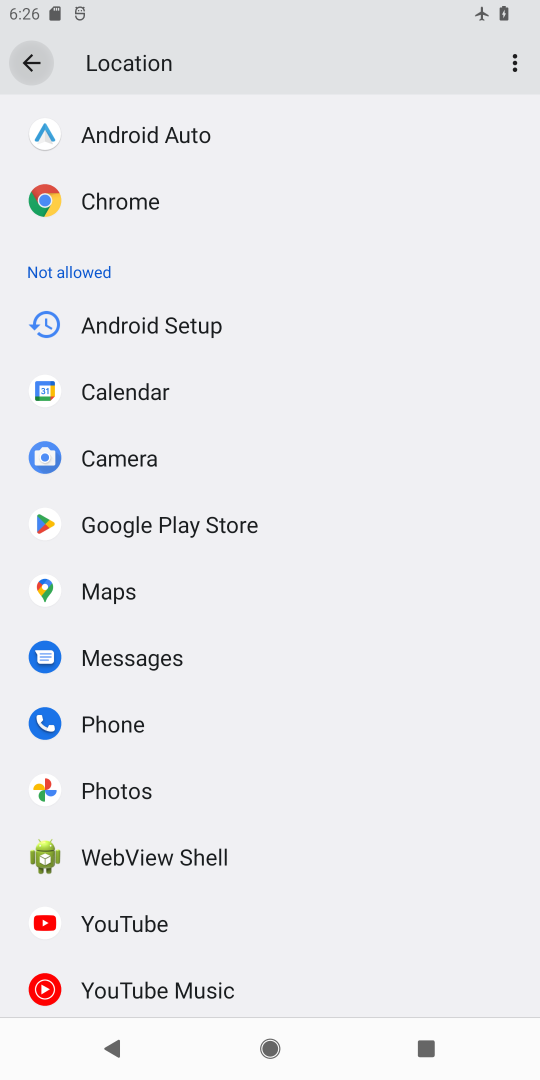
Step 54: click (22, 62)
Your task to perform on an android device: turn on bluetooth scan Image 55: 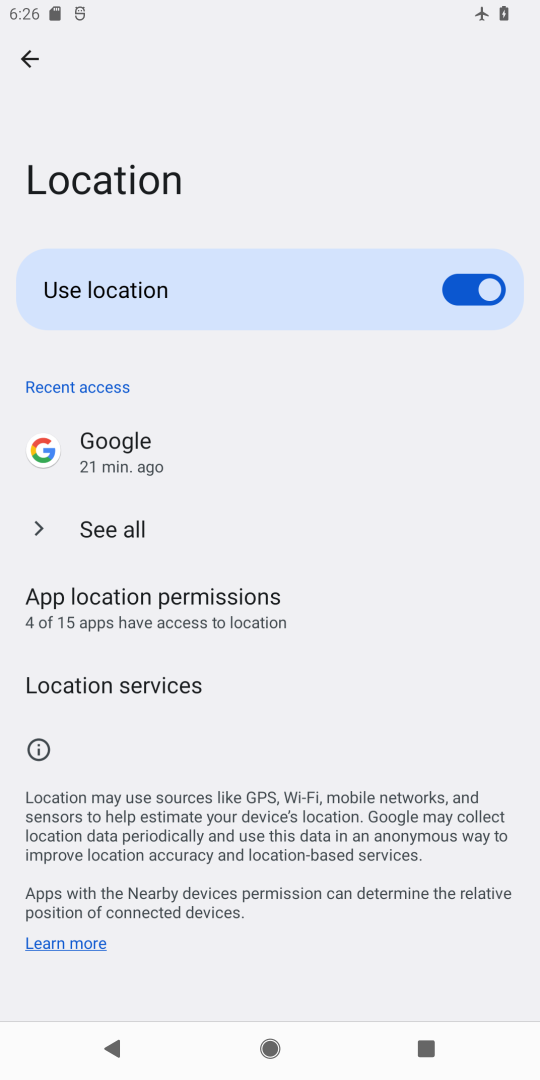
Step 55: click (22, 62)
Your task to perform on an android device: turn on bluetooth scan Image 56: 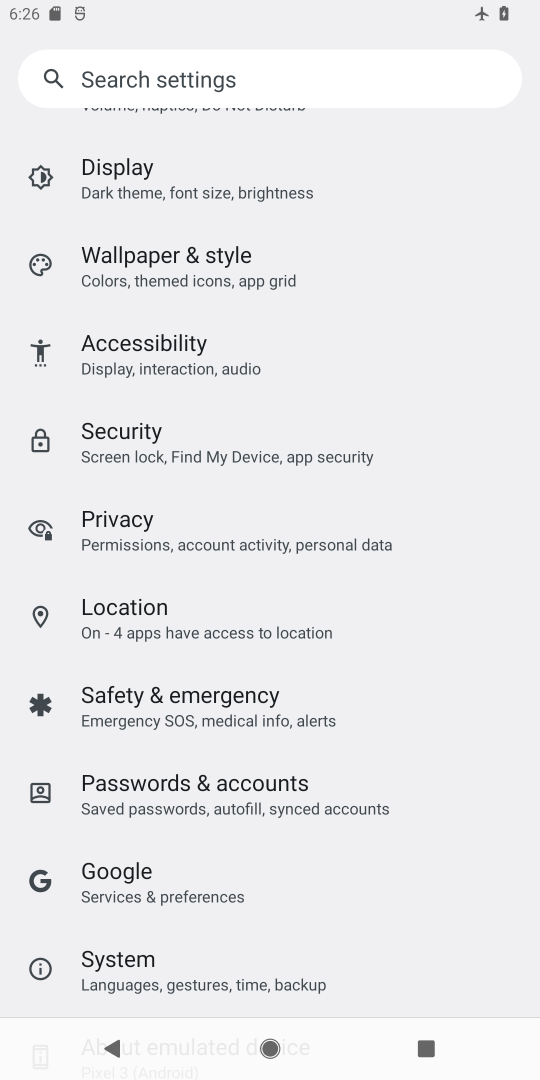
Step 56: click (128, 620)
Your task to perform on an android device: turn on bluetooth scan Image 57: 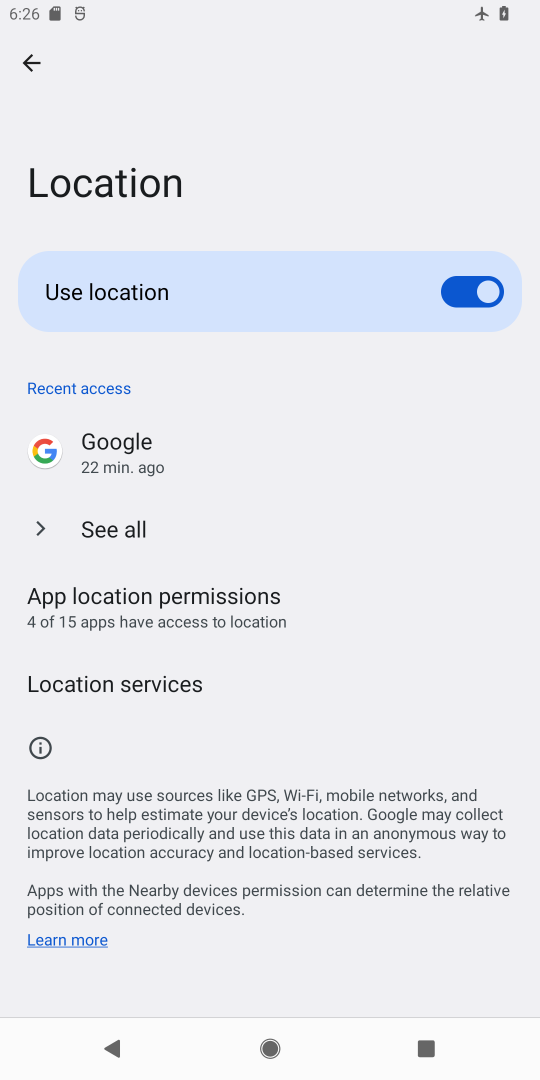
Step 57: click (105, 675)
Your task to perform on an android device: turn on bluetooth scan Image 58: 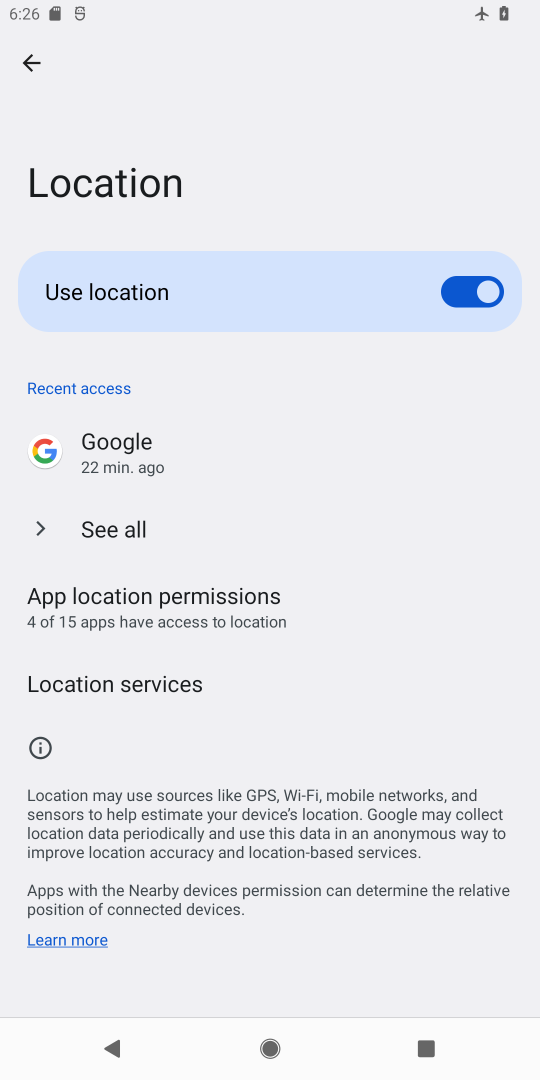
Step 58: click (105, 675)
Your task to perform on an android device: turn on bluetooth scan Image 59: 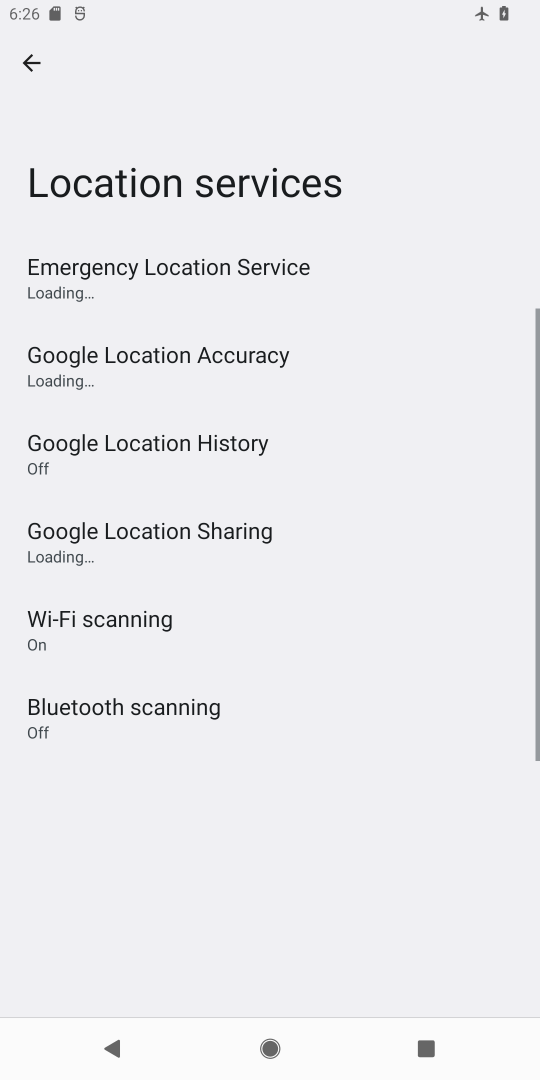
Step 59: click (105, 675)
Your task to perform on an android device: turn on bluetooth scan Image 60: 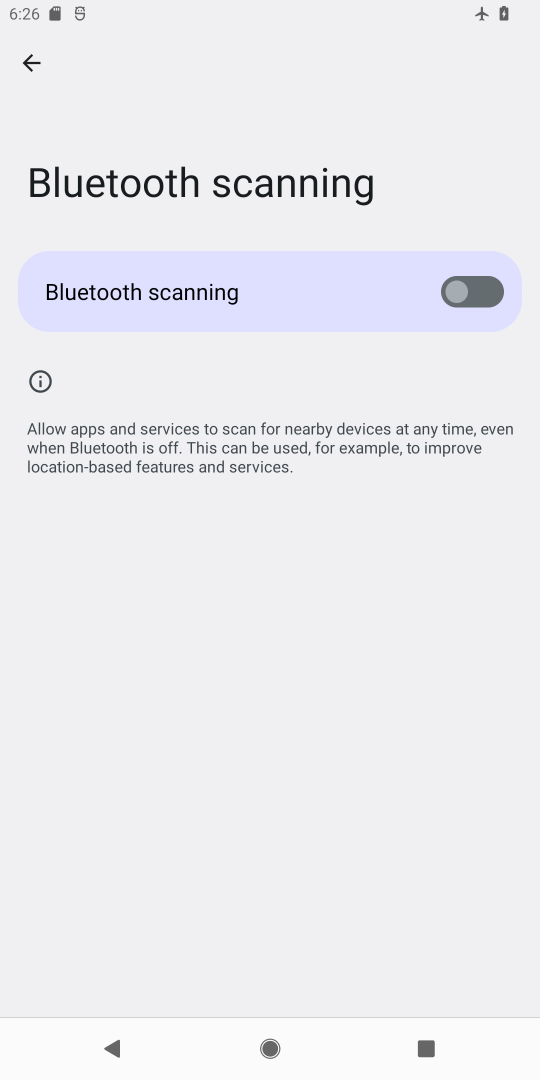
Step 60: click (36, 55)
Your task to perform on an android device: turn on bluetooth scan Image 61: 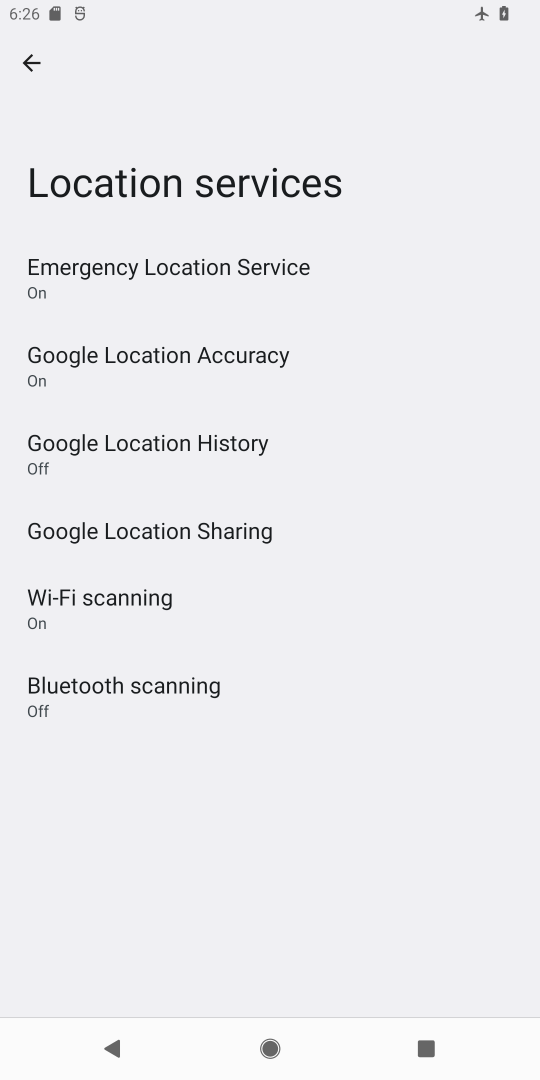
Step 61: click (41, 82)
Your task to perform on an android device: turn on bluetooth scan Image 62: 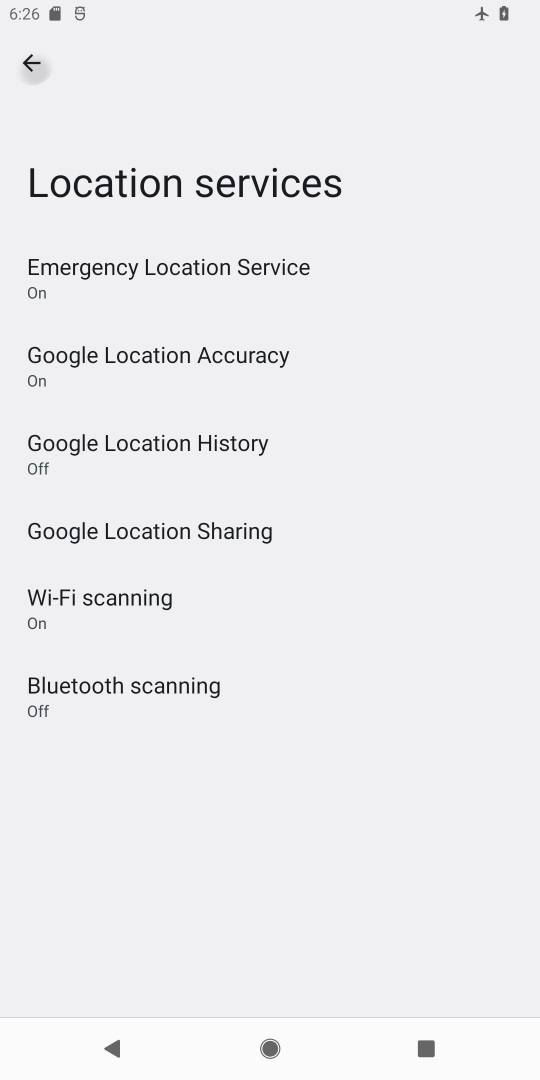
Step 62: click (29, 63)
Your task to perform on an android device: turn on bluetooth scan Image 63: 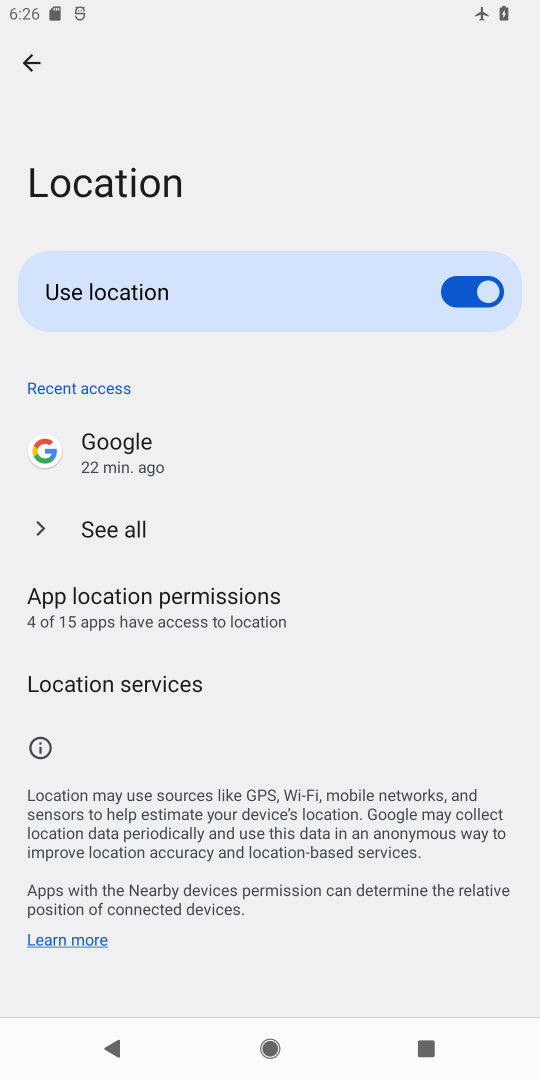
Step 63: click (156, 609)
Your task to perform on an android device: turn on bluetooth scan Image 64: 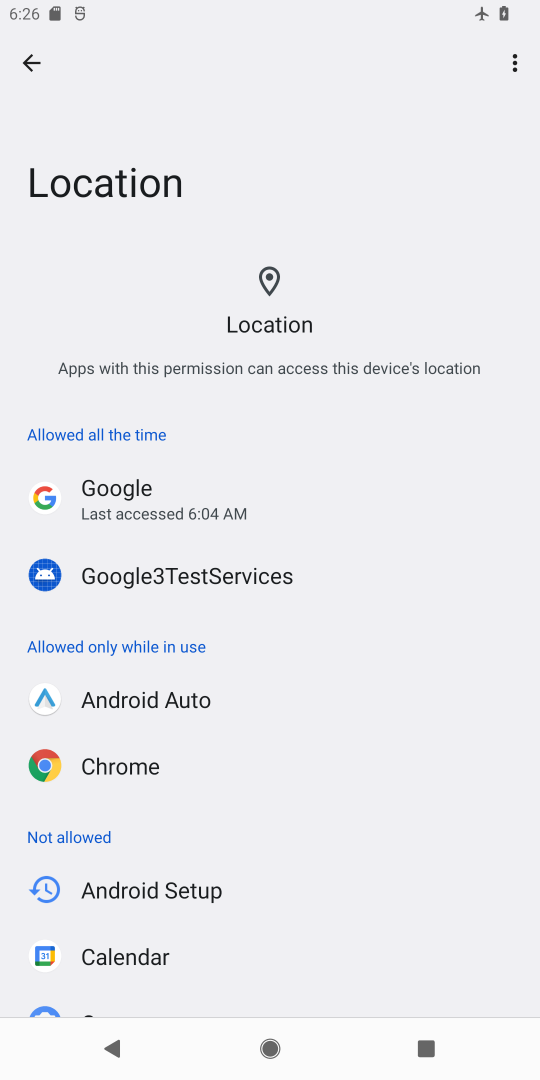
Step 64: task complete